Your task to perform on an android device: Show the shopping cart on newegg. Add acer predator to the cart on newegg, then select checkout. Image 0: 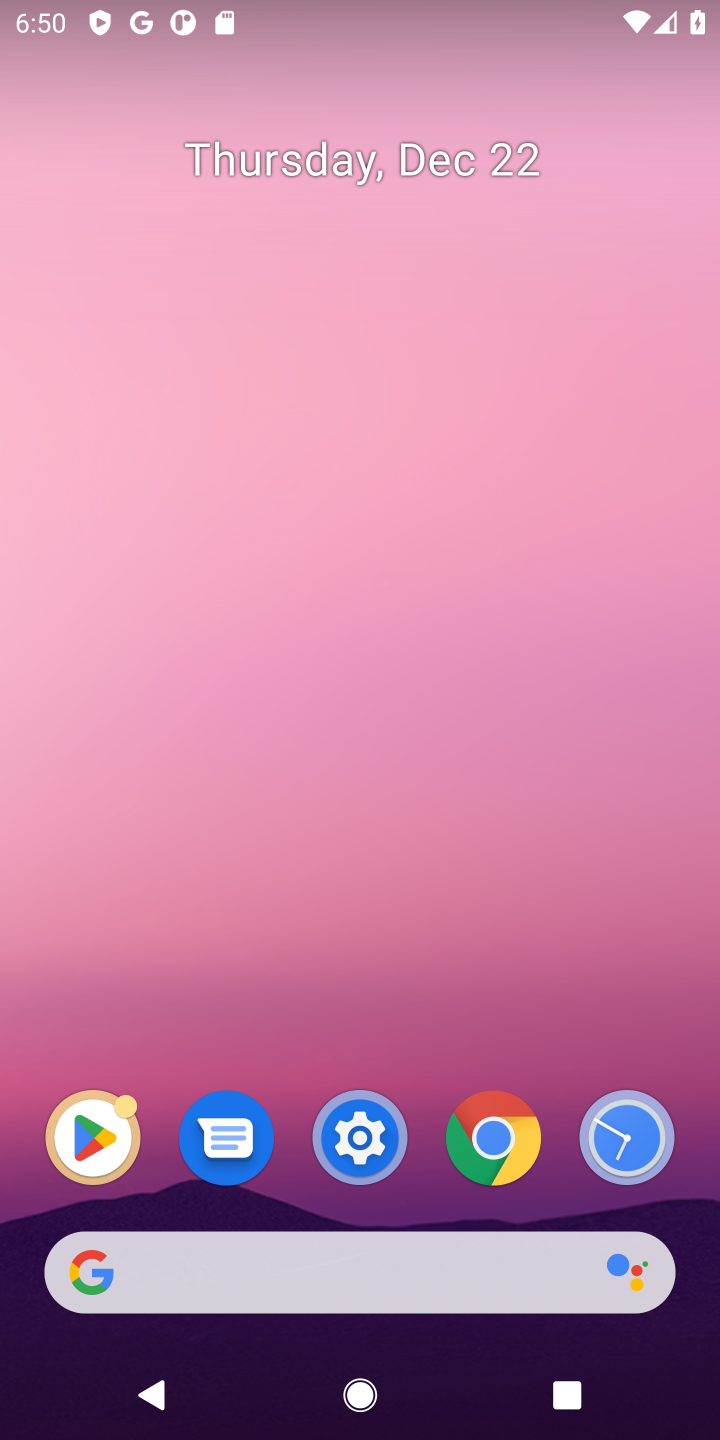
Step 0: click (495, 1164)
Your task to perform on an android device: Show the shopping cart on newegg. Add acer predator to the cart on newegg, then select checkout. Image 1: 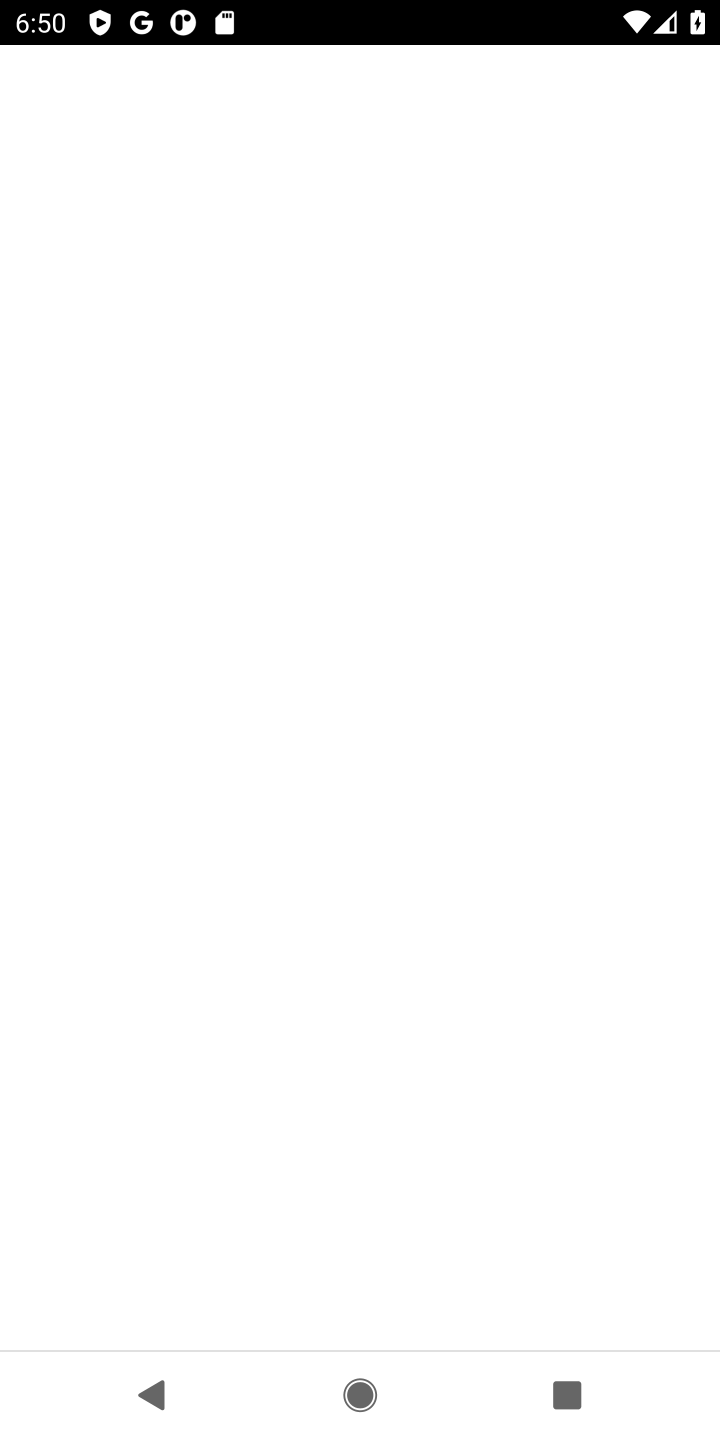
Step 1: press home button
Your task to perform on an android device: Show the shopping cart on newegg. Add acer predator to the cart on newegg, then select checkout. Image 2: 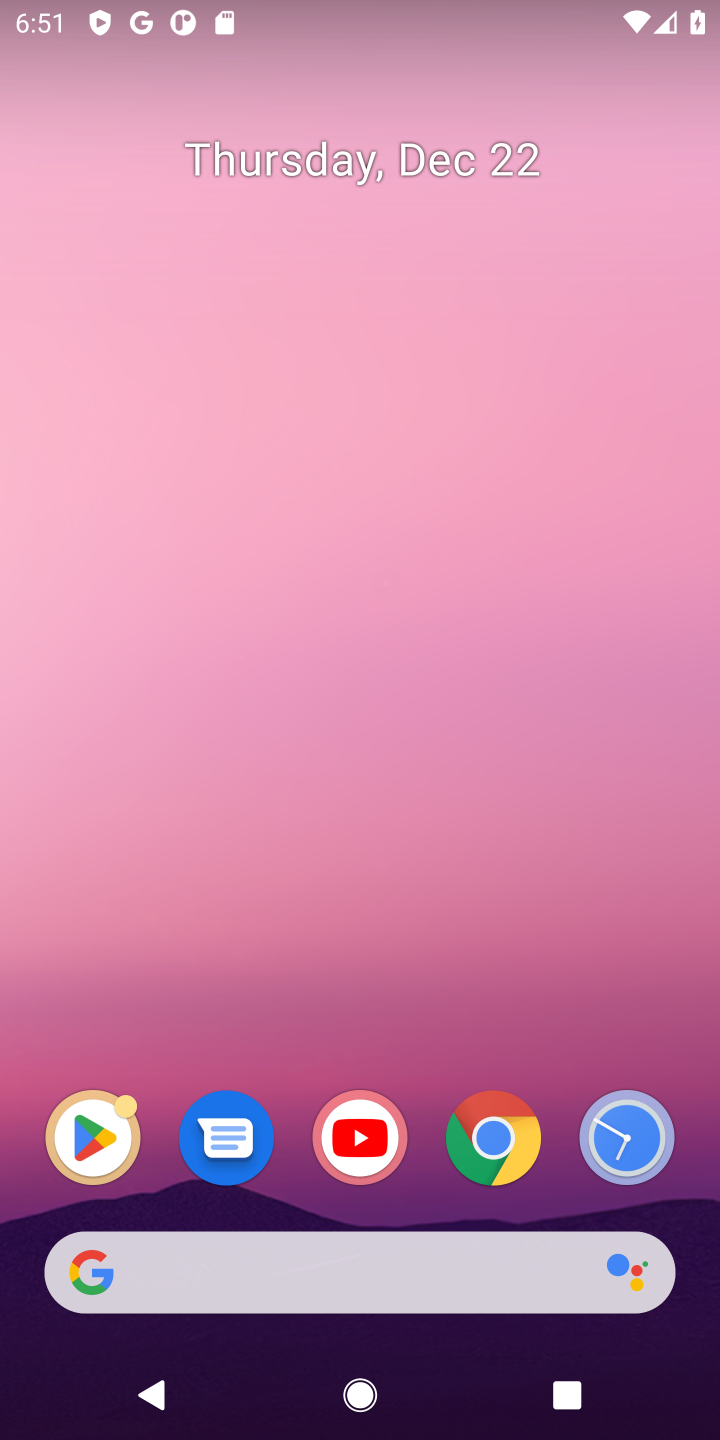
Step 2: click (503, 1144)
Your task to perform on an android device: Show the shopping cart on newegg. Add acer predator to the cart on newegg, then select checkout. Image 3: 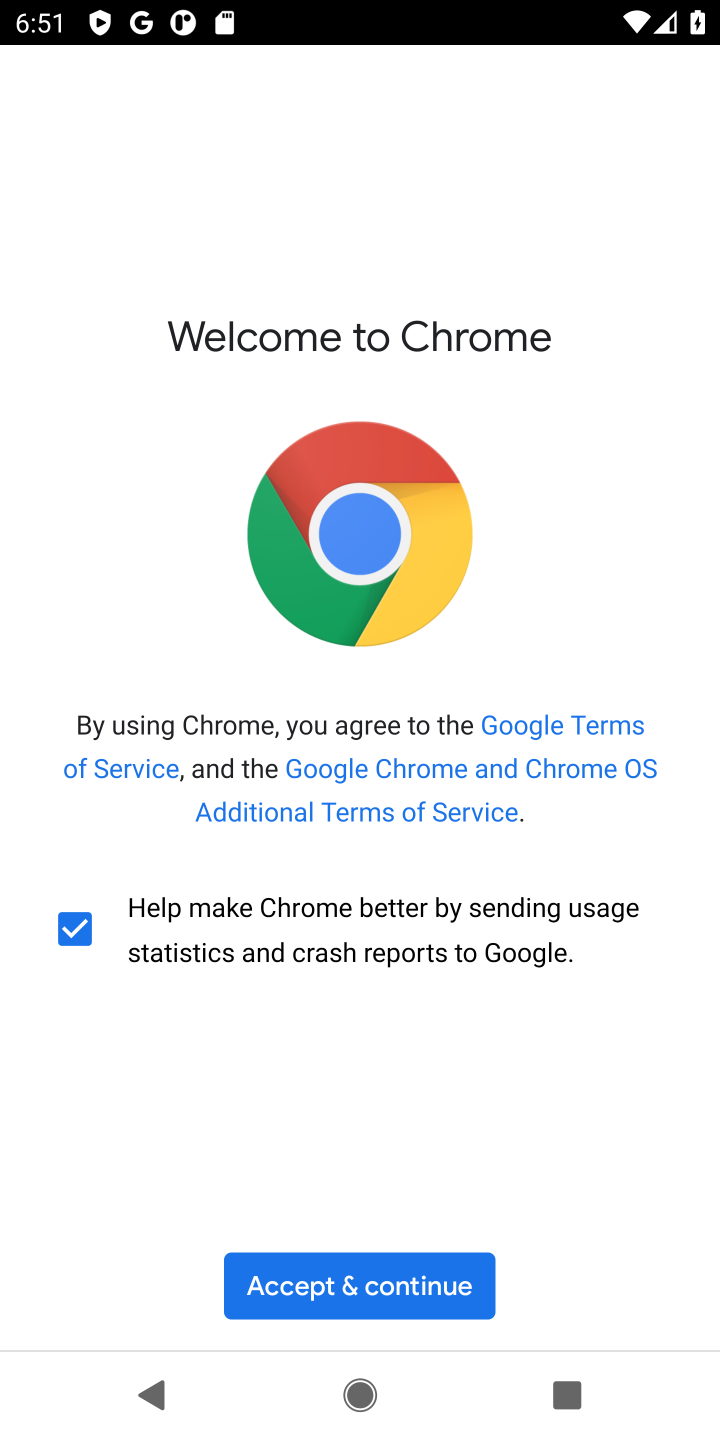
Step 3: click (360, 1278)
Your task to perform on an android device: Show the shopping cart on newegg. Add acer predator to the cart on newegg, then select checkout. Image 4: 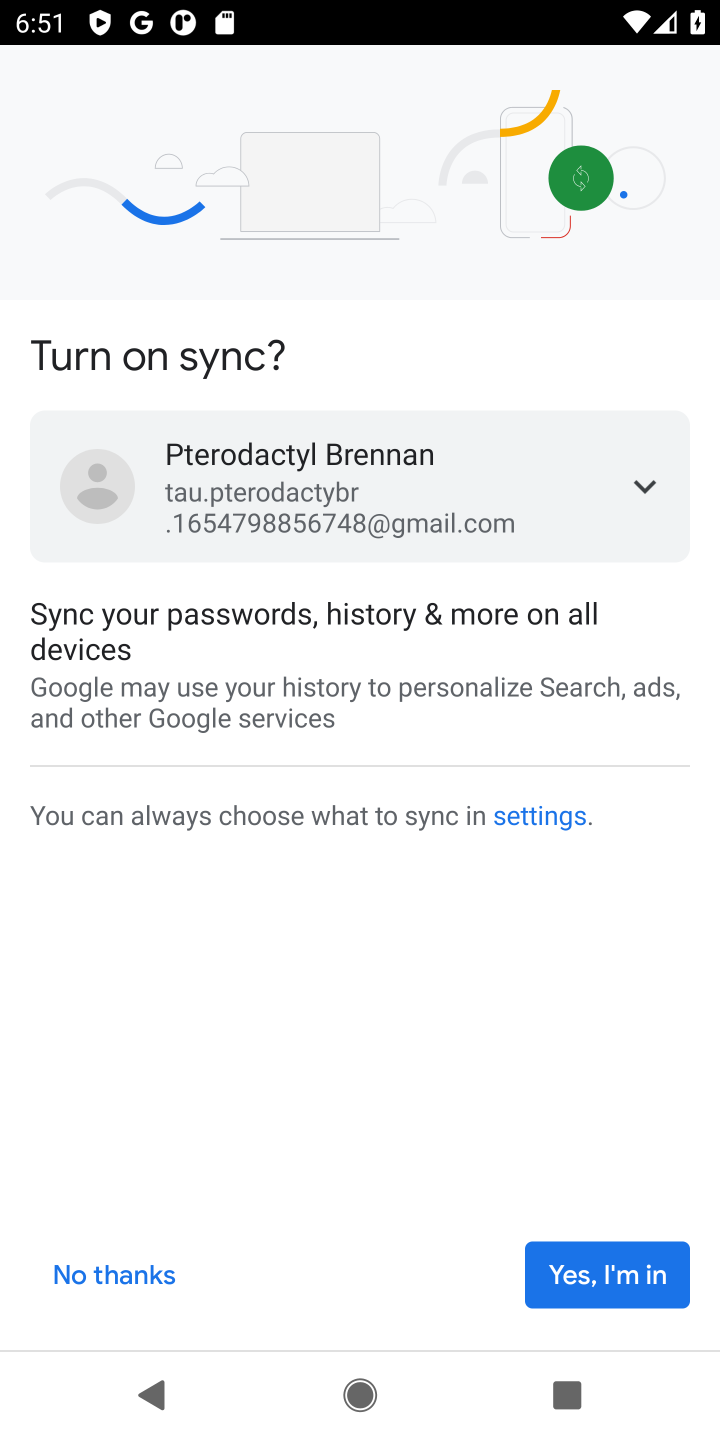
Step 4: click (618, 1269)
Your task to perform on an android device: Show the shopping cart on newegg. Add acer predator to the cart on newegg, then select checkout. Image 5: 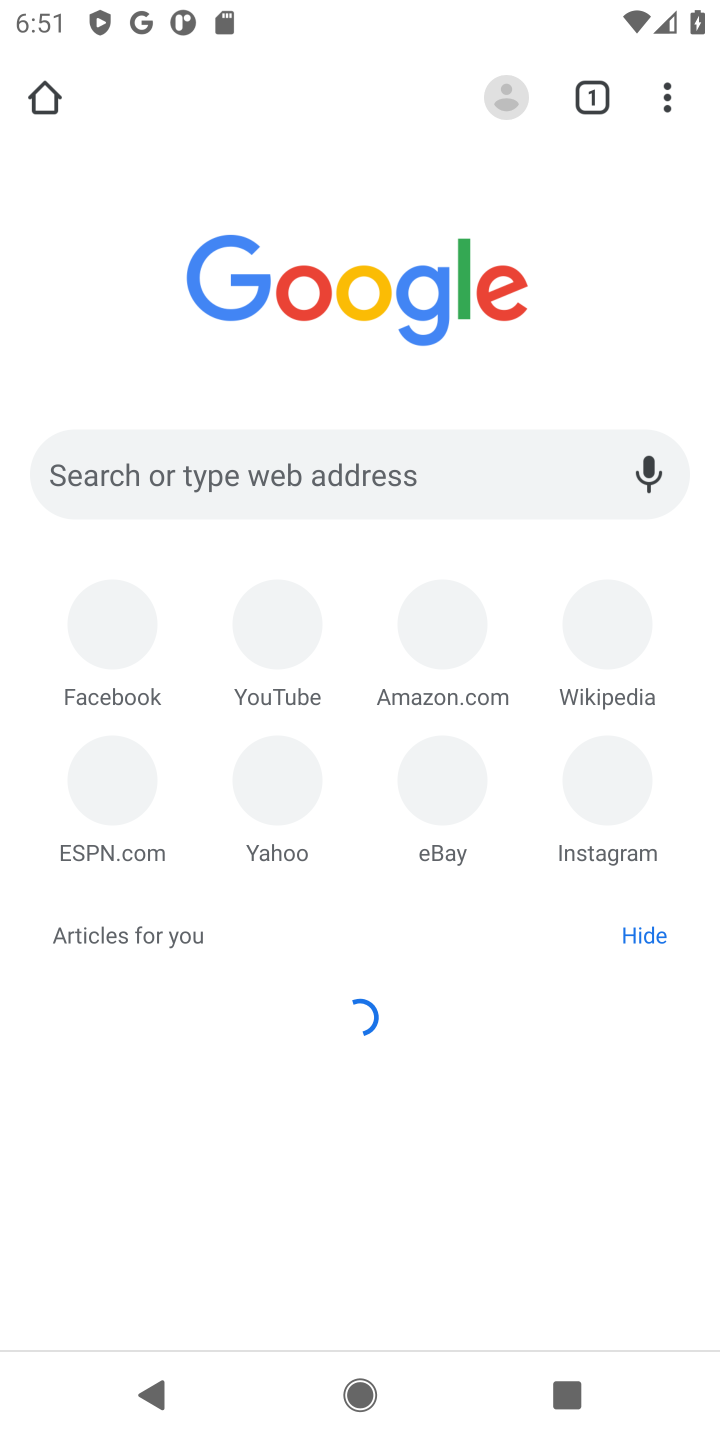
Step 5: click (307, 479)
Your task to perform on an android device: Show the shopping cart on newegg. Add acer predator to the cart on newegg, then select checkout. Image 6: 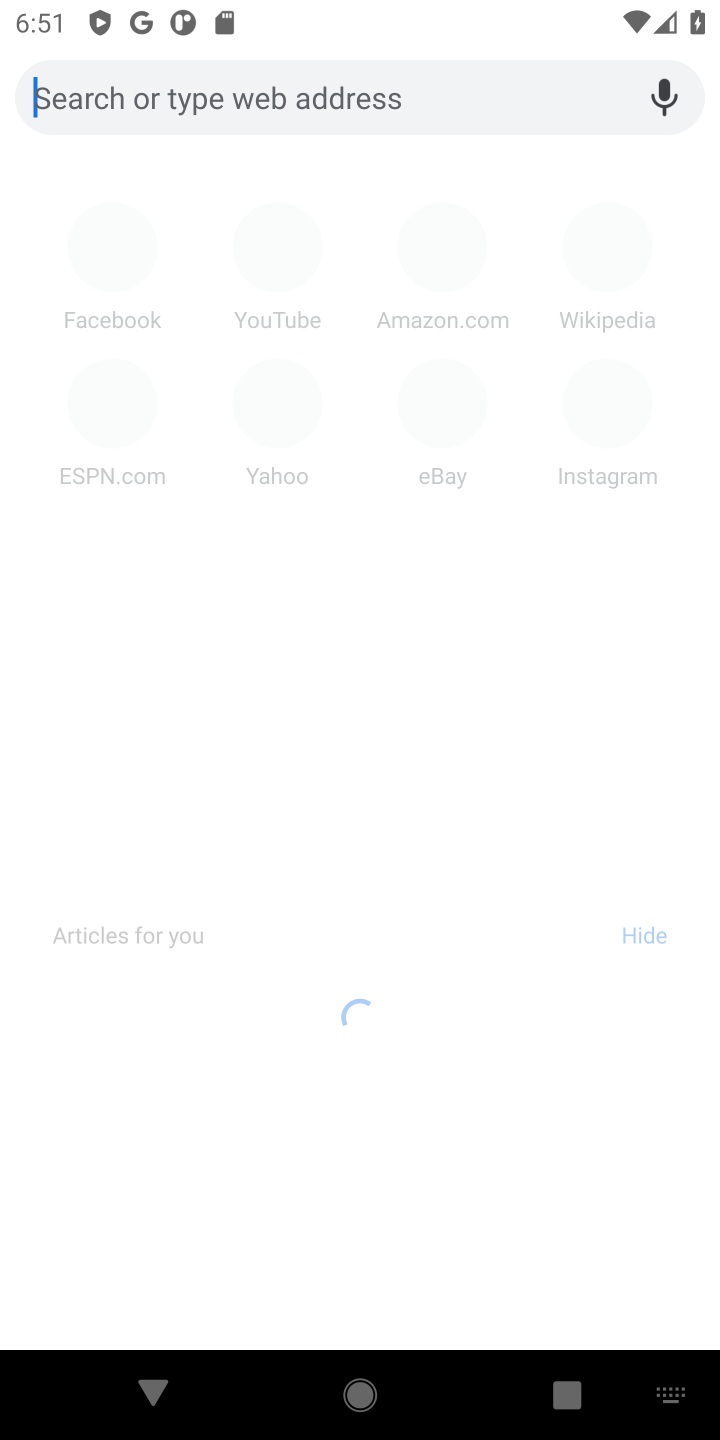
Step 6: press enter
Your task to perform on an android device: Show the shopping cart on newegg. Add acer predator to the cart on newegg, then select checkout. Image 7: 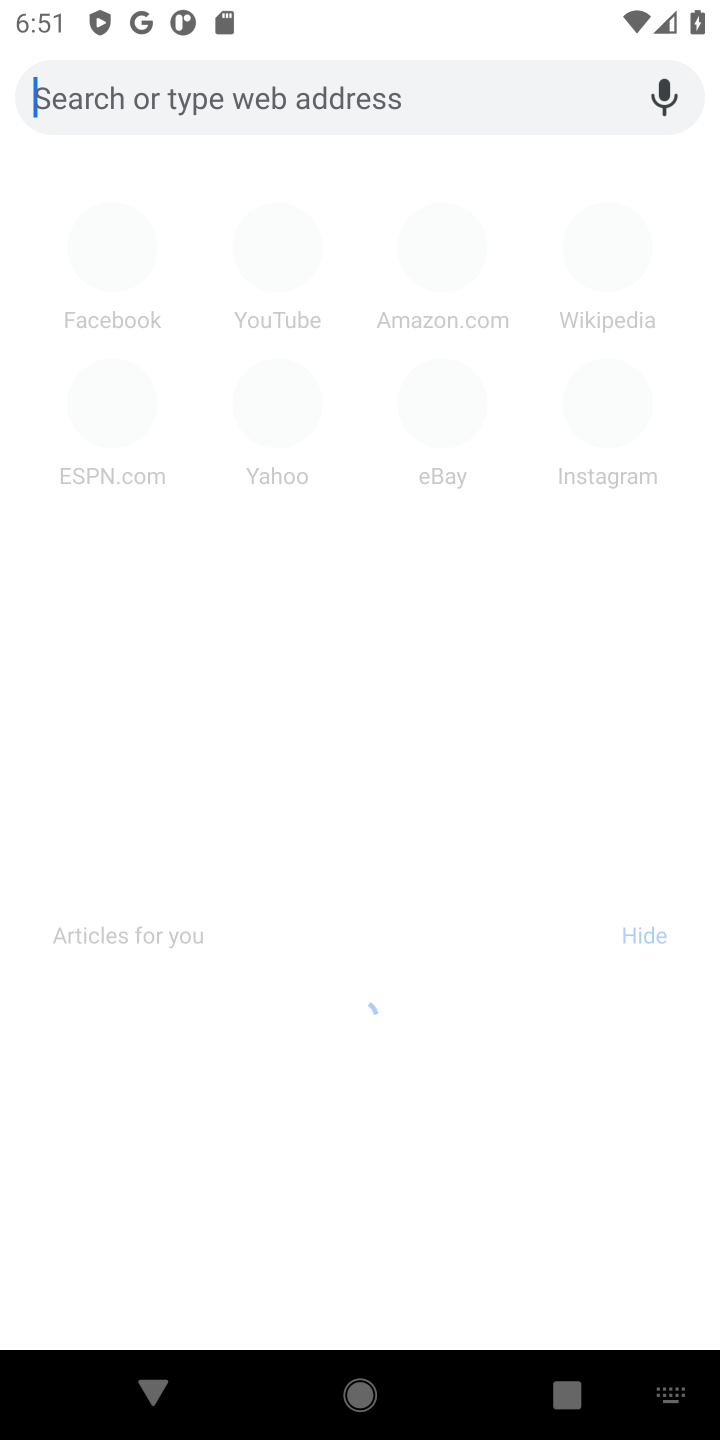
Step 7: type "newegg"
Your task to perform on an android device: Show the shopping cart on newegg. Add acer predator to the cart on newegg, then select checkout. Image 8: 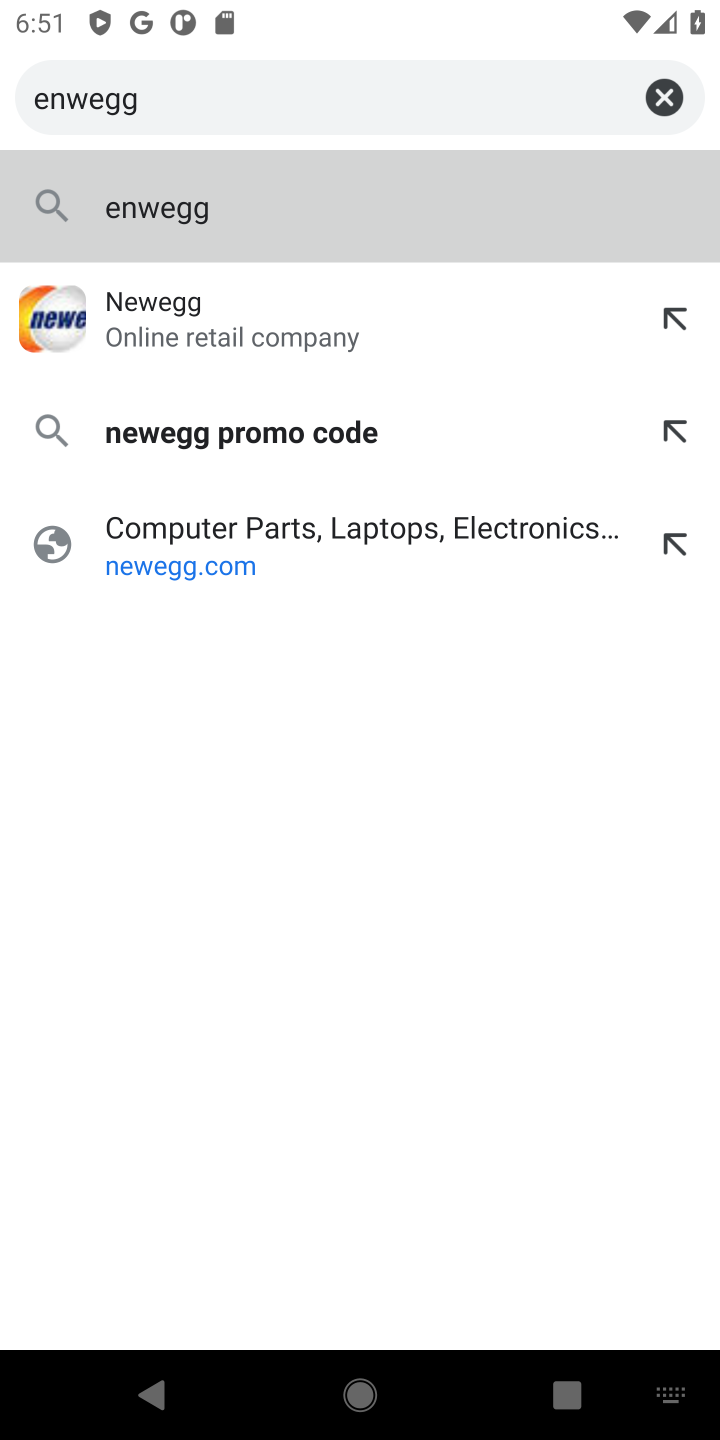
Step 8: click (354, 213)
Your task to perform on an android device: Show the shopping cart on newegg. Add acer predator to the cart on newegg, then select checkout. Image 9: 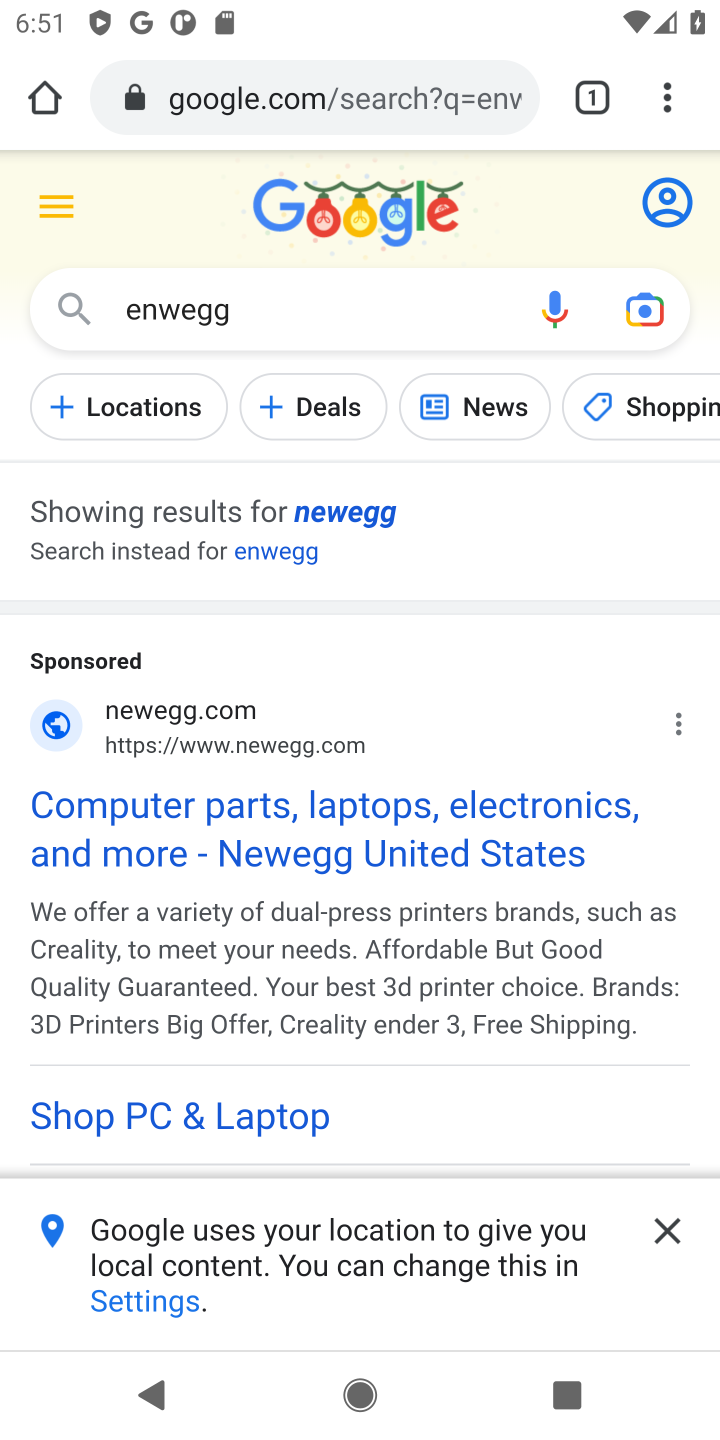
Step 9: click (225, 698)
Your task to perform on an android device: Show the shopping cart on newegg. Add acer predator to the cart on newegg, then select checkout. Image 10: 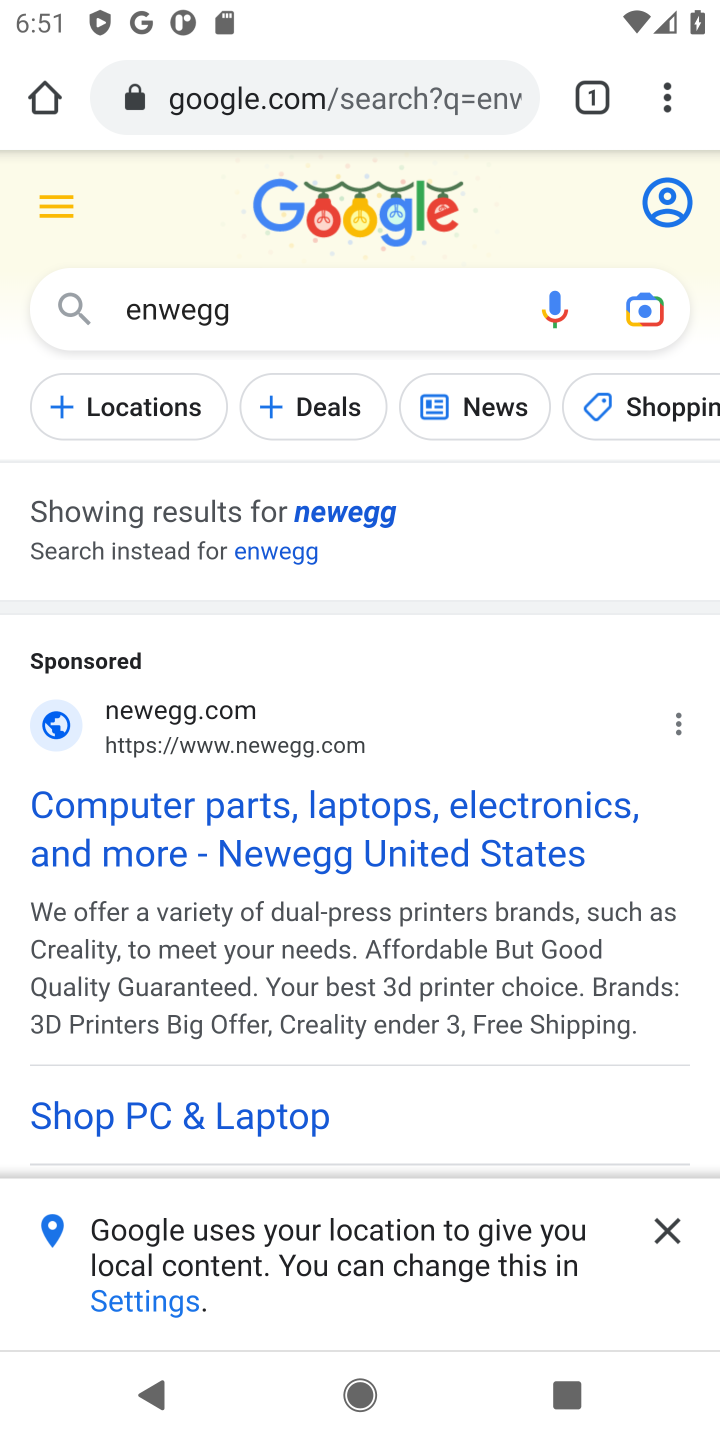
Step 10: drag from (412, 986) to (503, 538)
Your task to perform on an android device: Show the shopping cart on newegg. Add acer predator to the cart on newegg, then select checkout. Image 11: 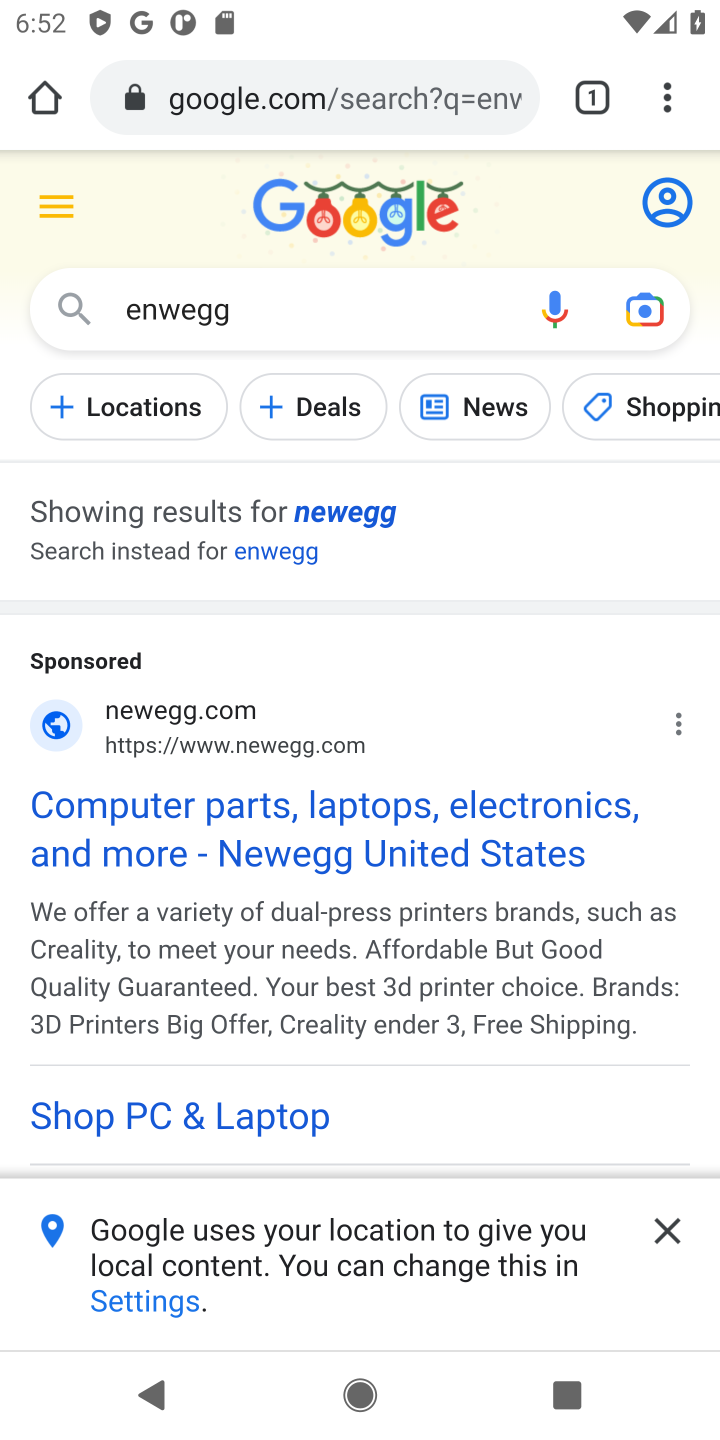
Step 11: drag from (505, 1018) to (541, 540)
Your task to perform on an android device: Show the shopping cart on newegg. Add acer predator to the cart on newegg, then select checkout. Image 12: 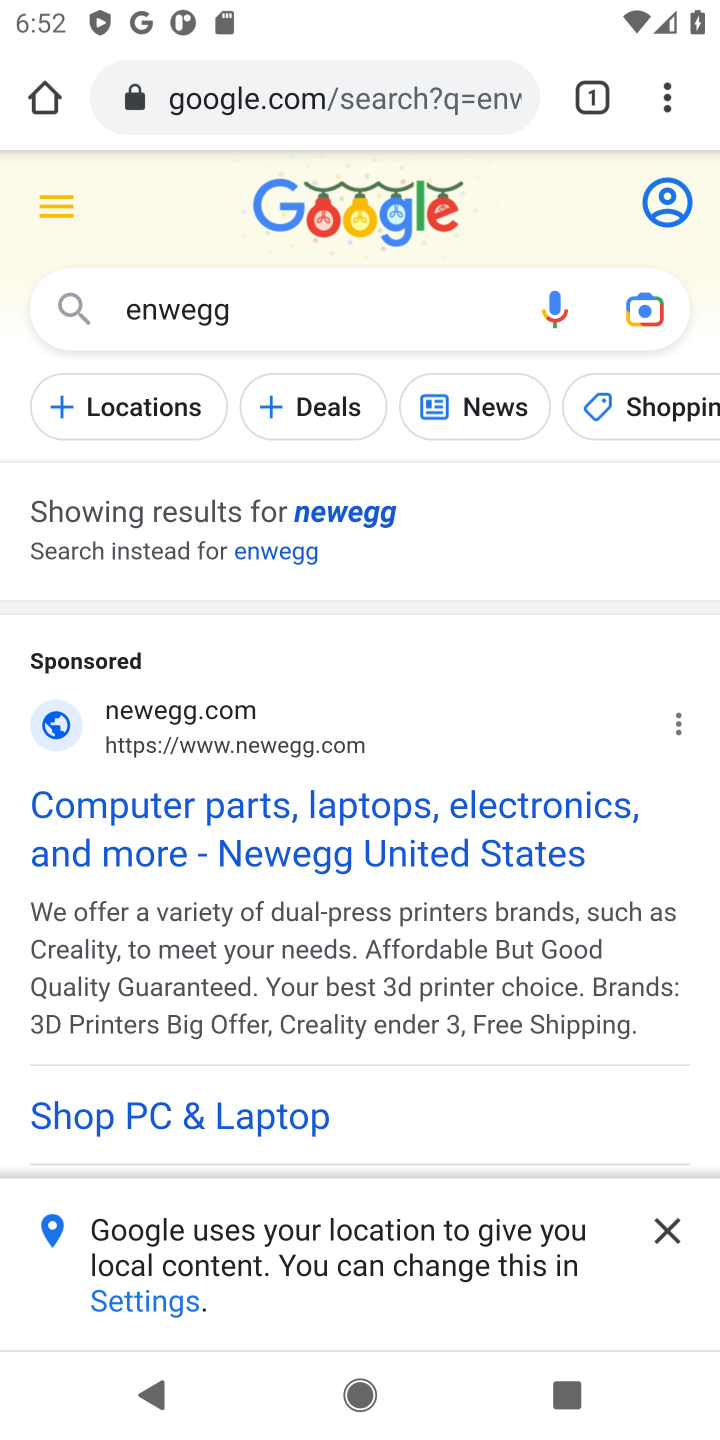
Step 12: click (296, 747)
Your task to perform on an android device: Show the shopping cart on newegg. Add acer predator to the cart on newegg, then select checkout. Image 13: 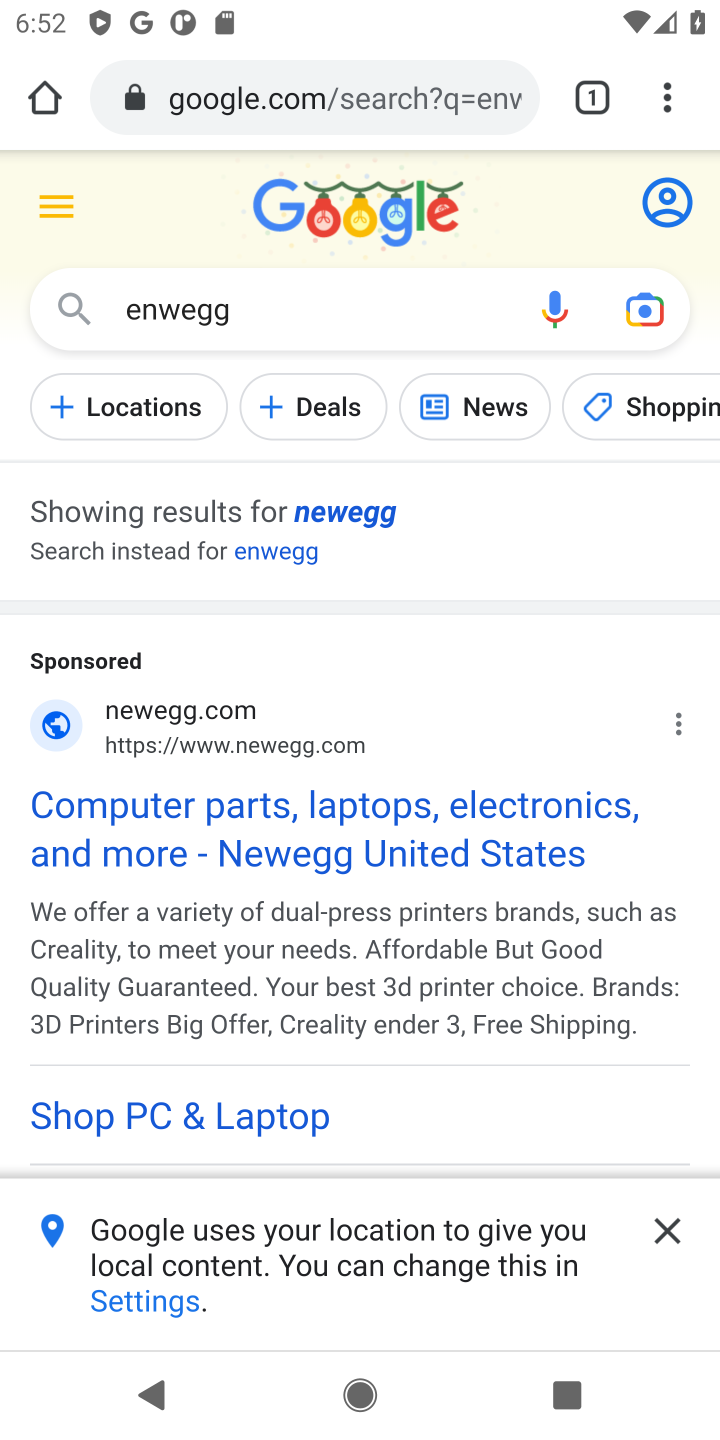
Step 13: click (296, 747)
Your task to perform on an android device: Show the shopping cart on newegg. Add acer predator to the cart on newegg, then select checkout. Image 14: 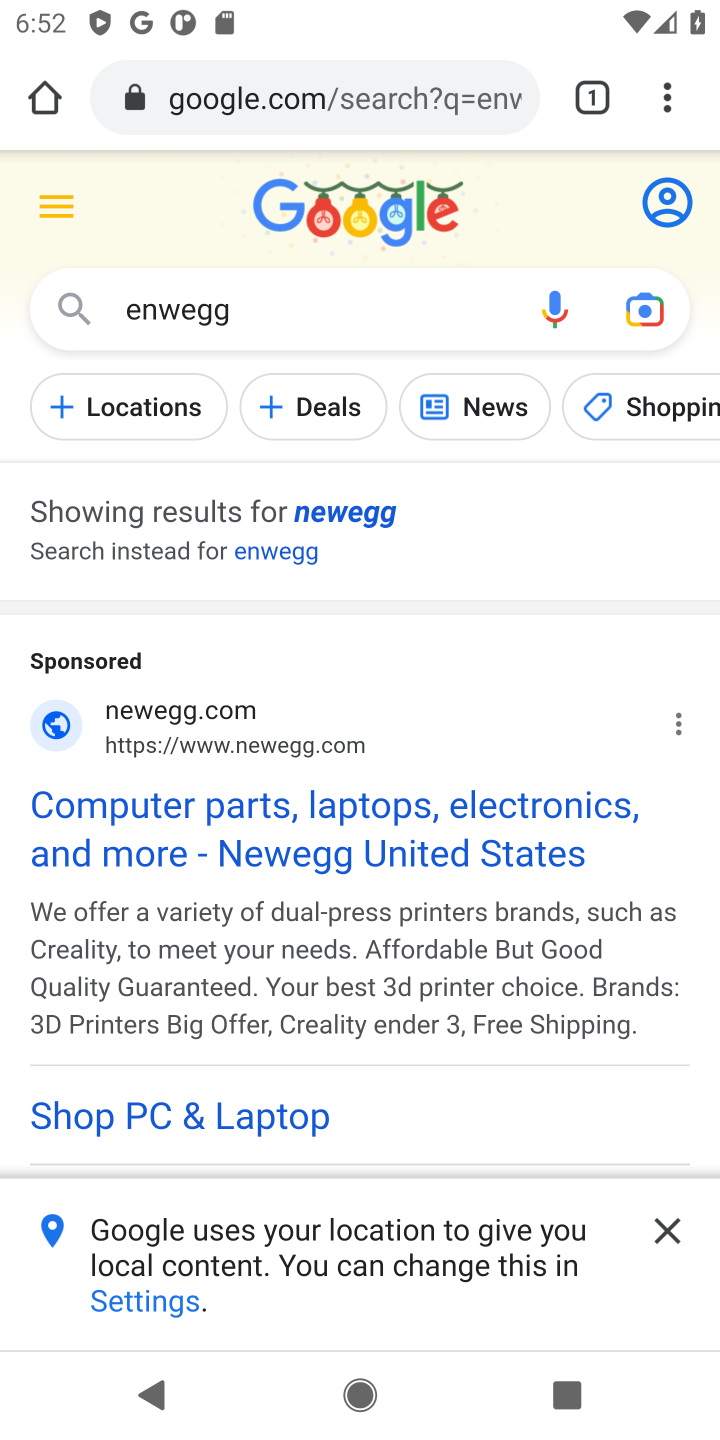
Step 14: click (296, 747)
Your task to perform on an android device: Show the shopping cart on newegg. Add acer predator to the cart on newegg, then select checkout. Image 15: 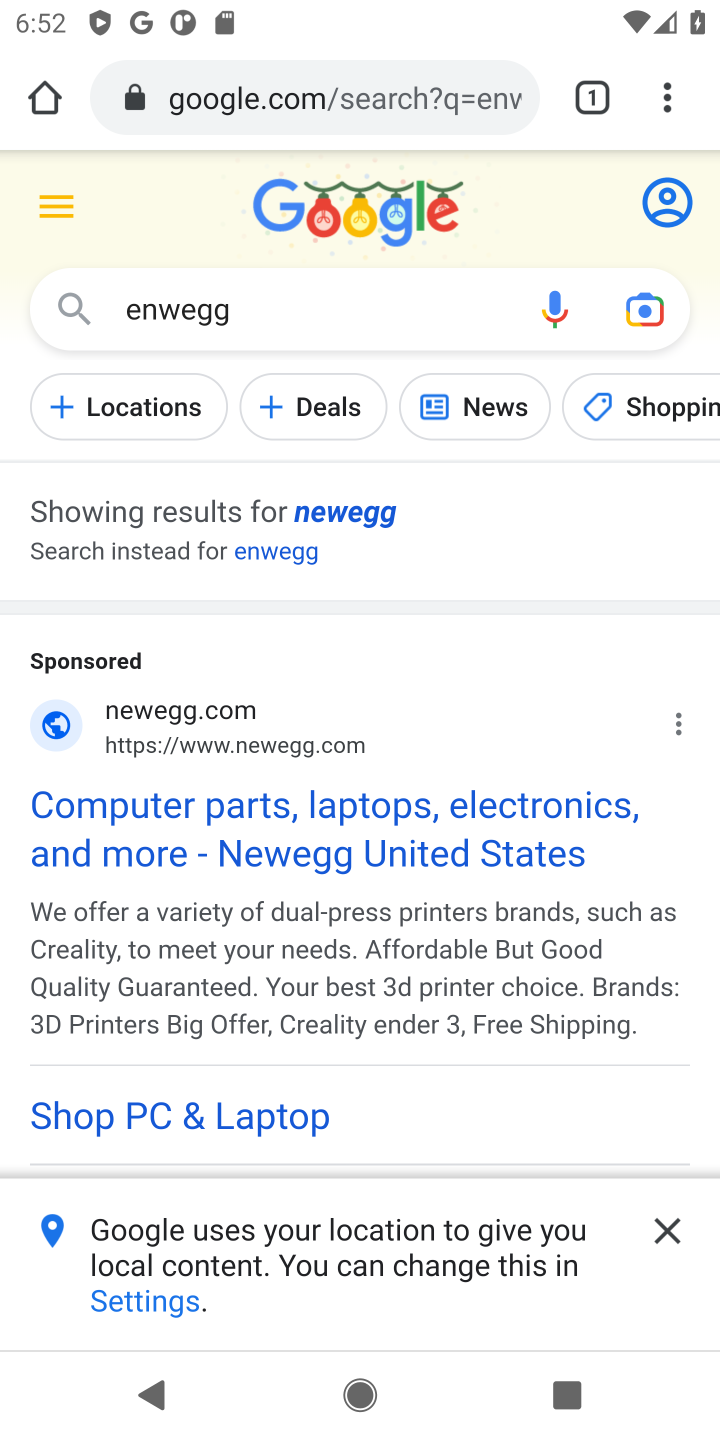
Step 15: click (296, 747)
Your task to perform on an android device: Show the shopping cart on newegg. Add acer predator to the cart on newegg, then select checkout. Image 16: 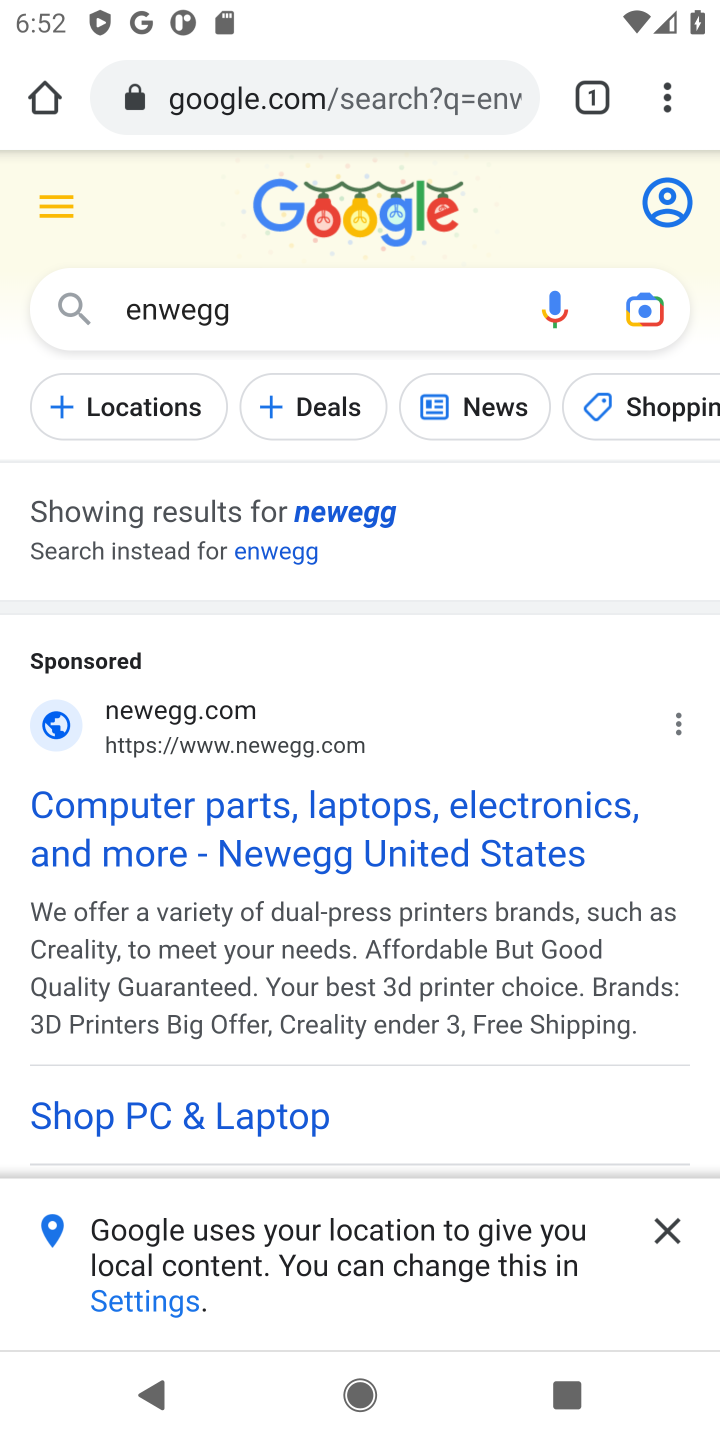
Step 16: click (216, 742)
Your task to perform on an android device: Show the shopping cart on newegg. Add acer predator to the cart on newegg, then select checkout. Image 17: 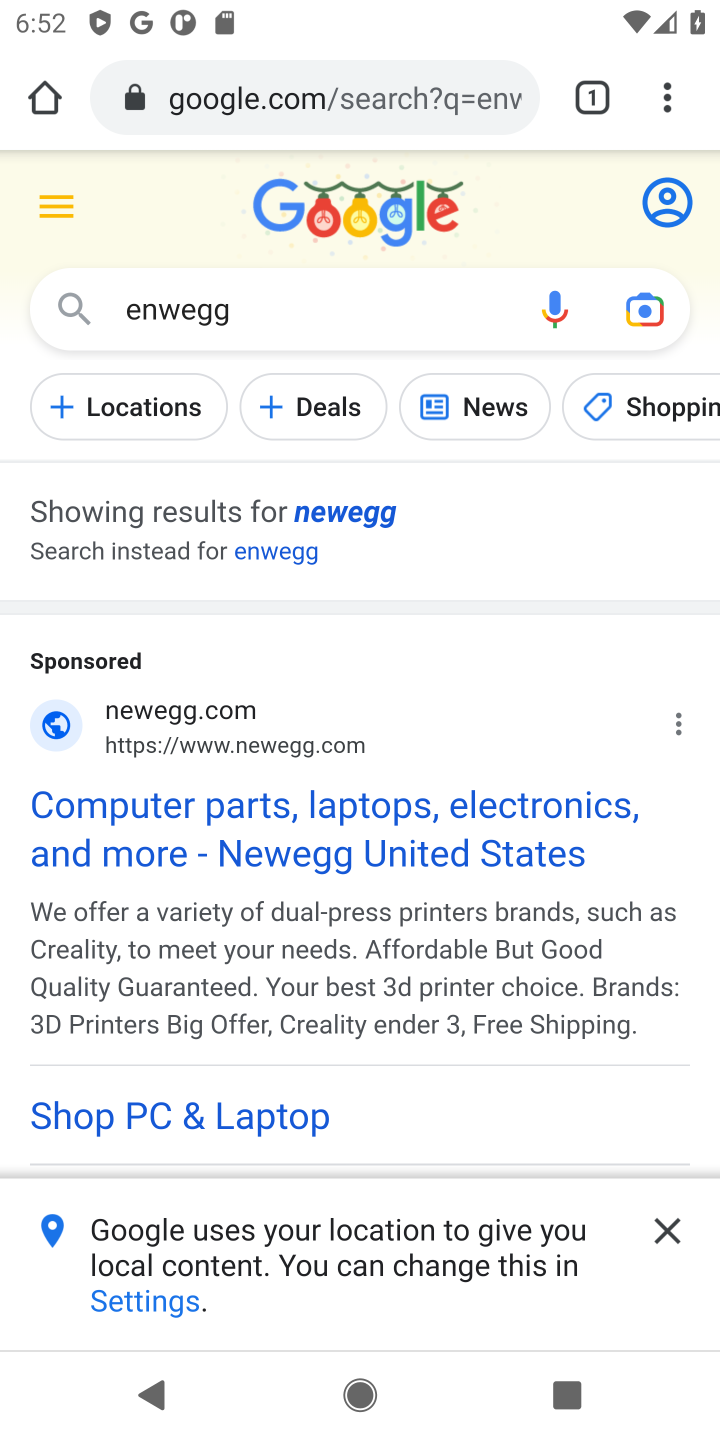
Step 17: click (674, 1226)
Your task to perform on an android device: Show the shopping cart on newegg. Add acer predator to the cart on newegg, then select checkout. Image 18: 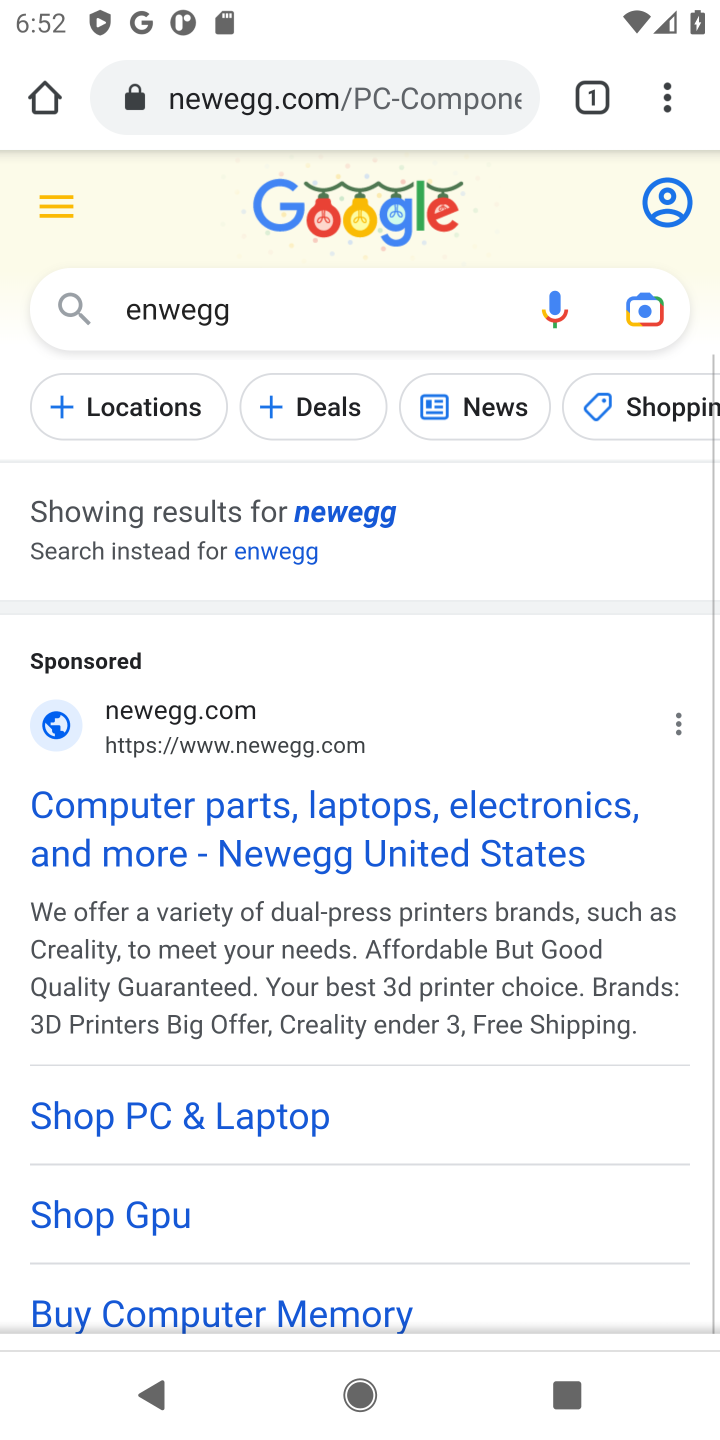
Step 18: click (324, 737)
Your task to perform on an android device: Show the shopping cart on newegg. Add acer predator to the cart on newegg, then select checkout. Image 19: 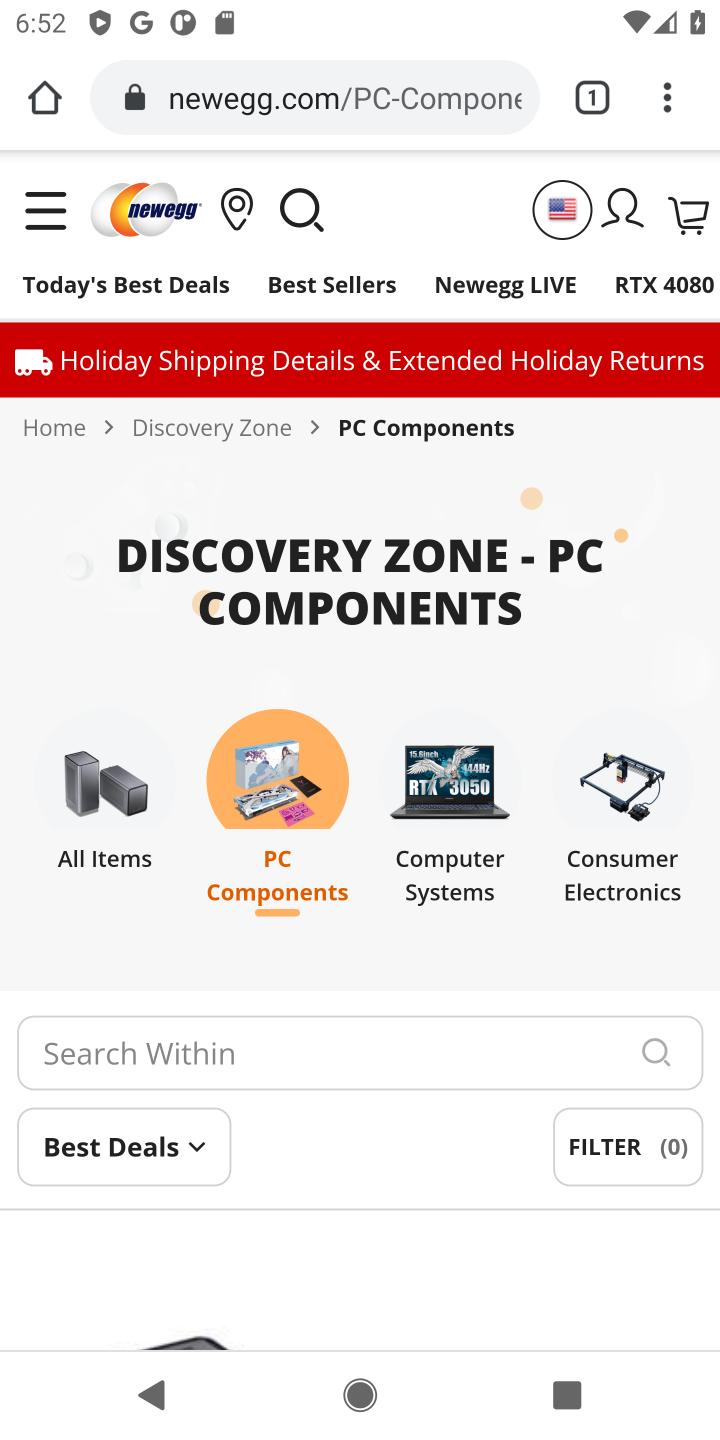
Step 19: click (308, 205)
Your task to perform on an android device: Show the shopping cart on newegg. Add acer predator to the cart on newegg, then select checkout. Image 20: 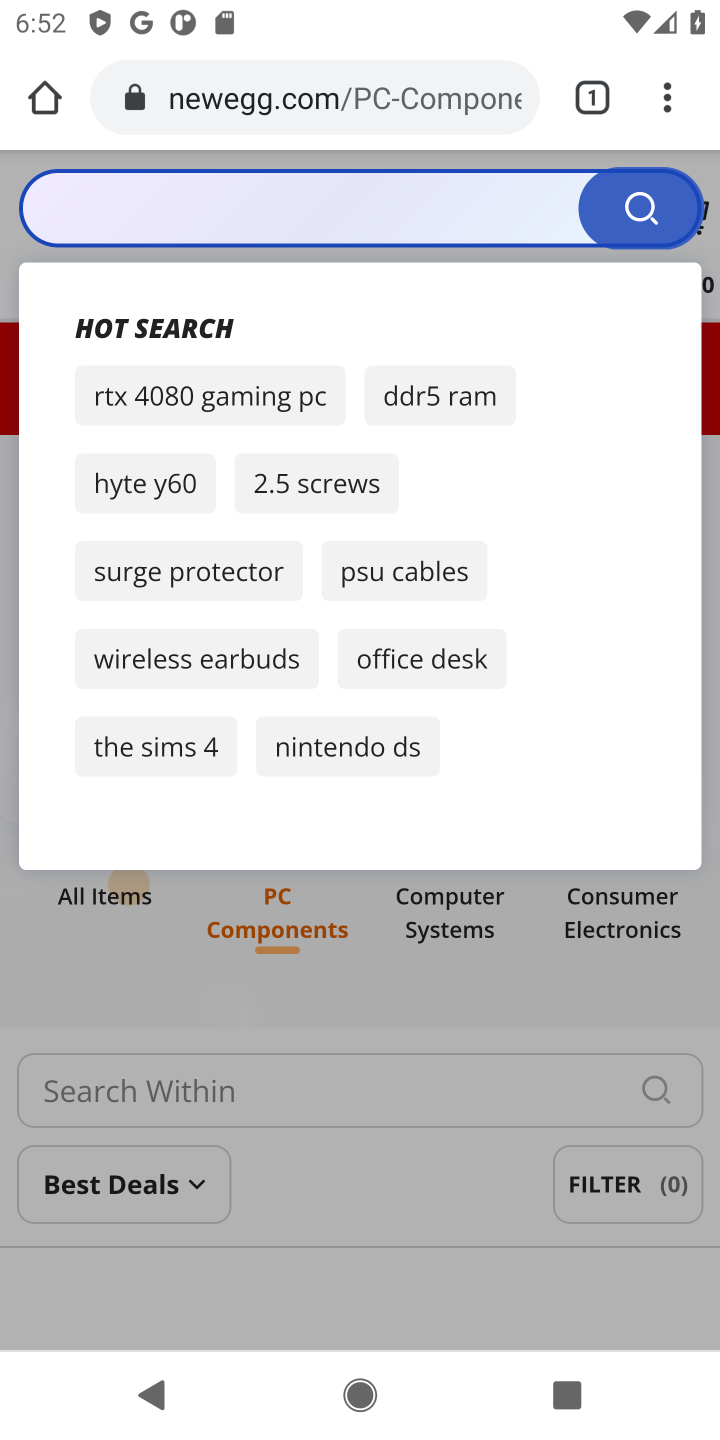
Step 20: click (432, 218)
Your task to perform on an android device: Show the shopping cart on newegg. Add acer predator to the cart on newegg, then select checkout. Image 21: 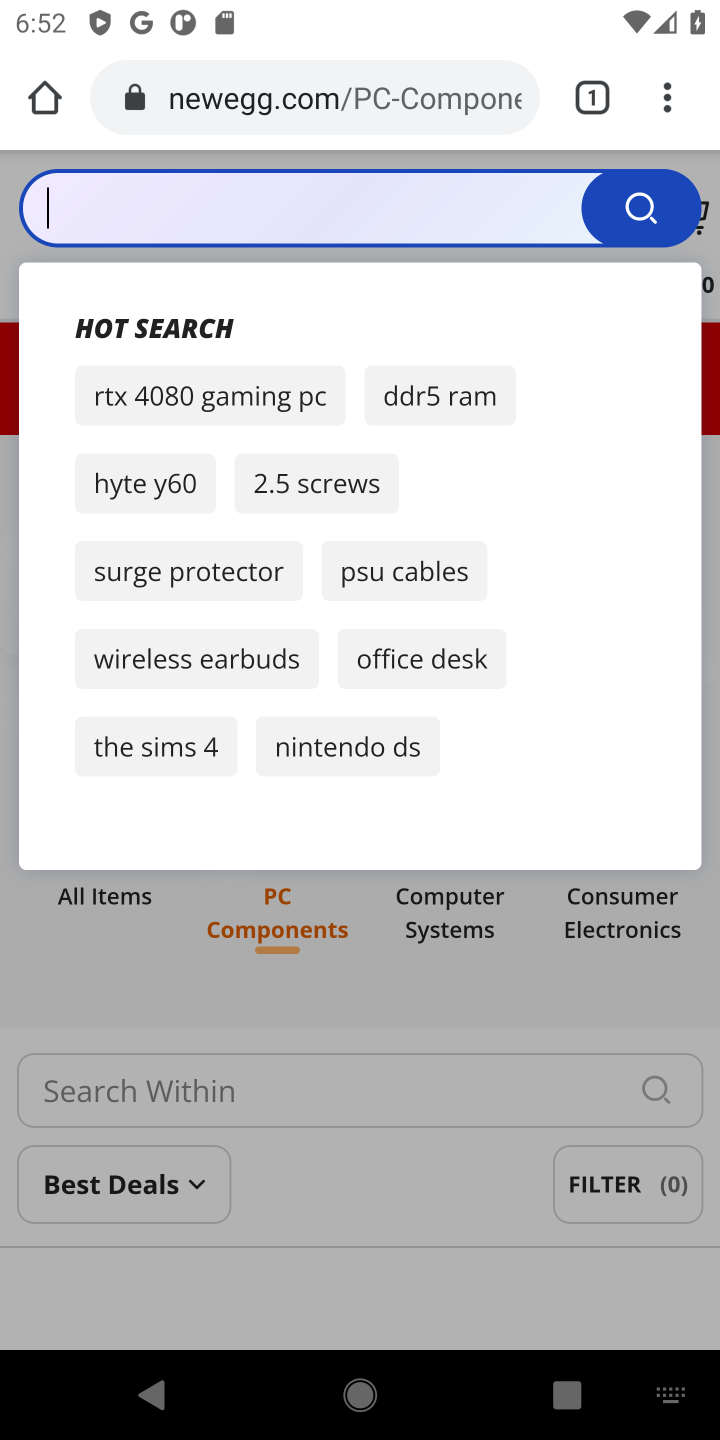
Step 21: click (432, 218)
Your task to perform on an android device: Show the shopping cart on newegg. Add acer predator to the cart on newegg, then select checkout. Image 22: 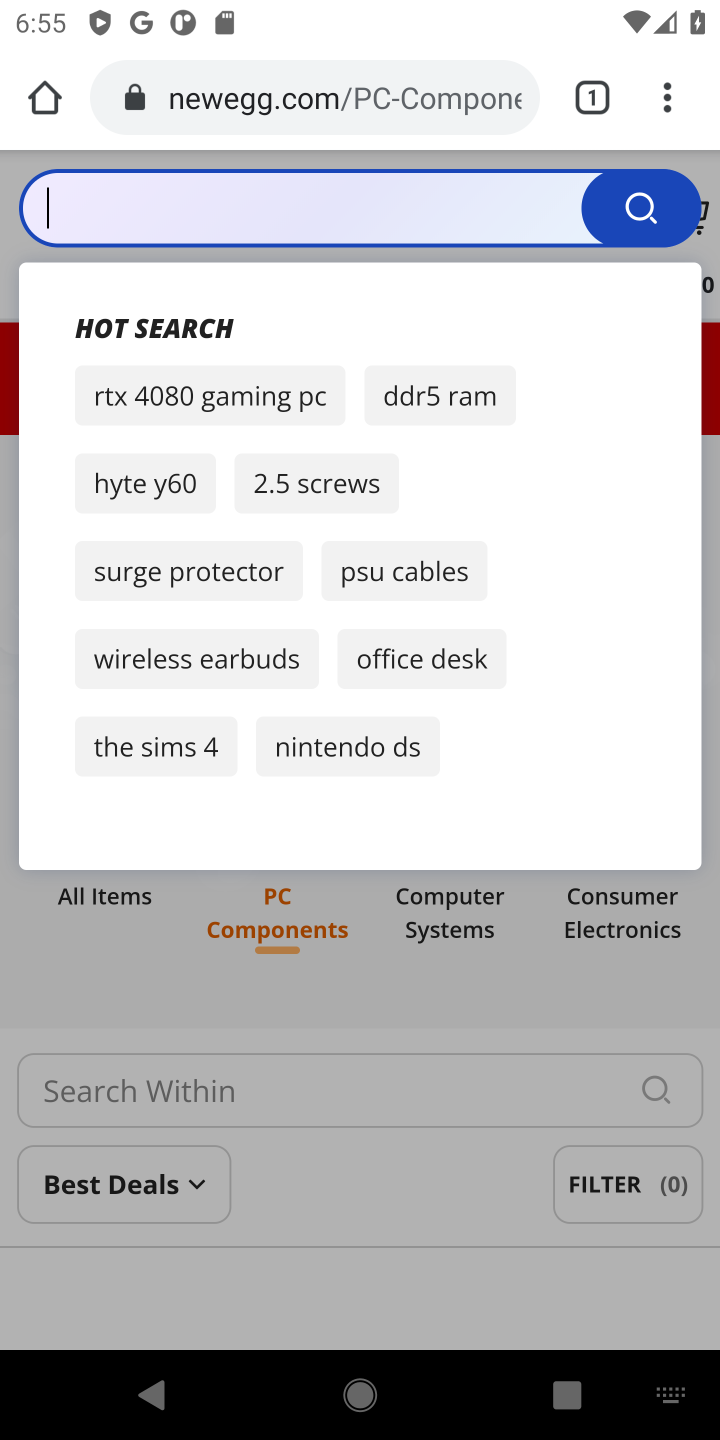
Step 22: click (536, 988)
Your task to perform on an android device: Show the shopping cart on newegg. Add acer predator to the cart on newegg, then select checkout. Image 23: 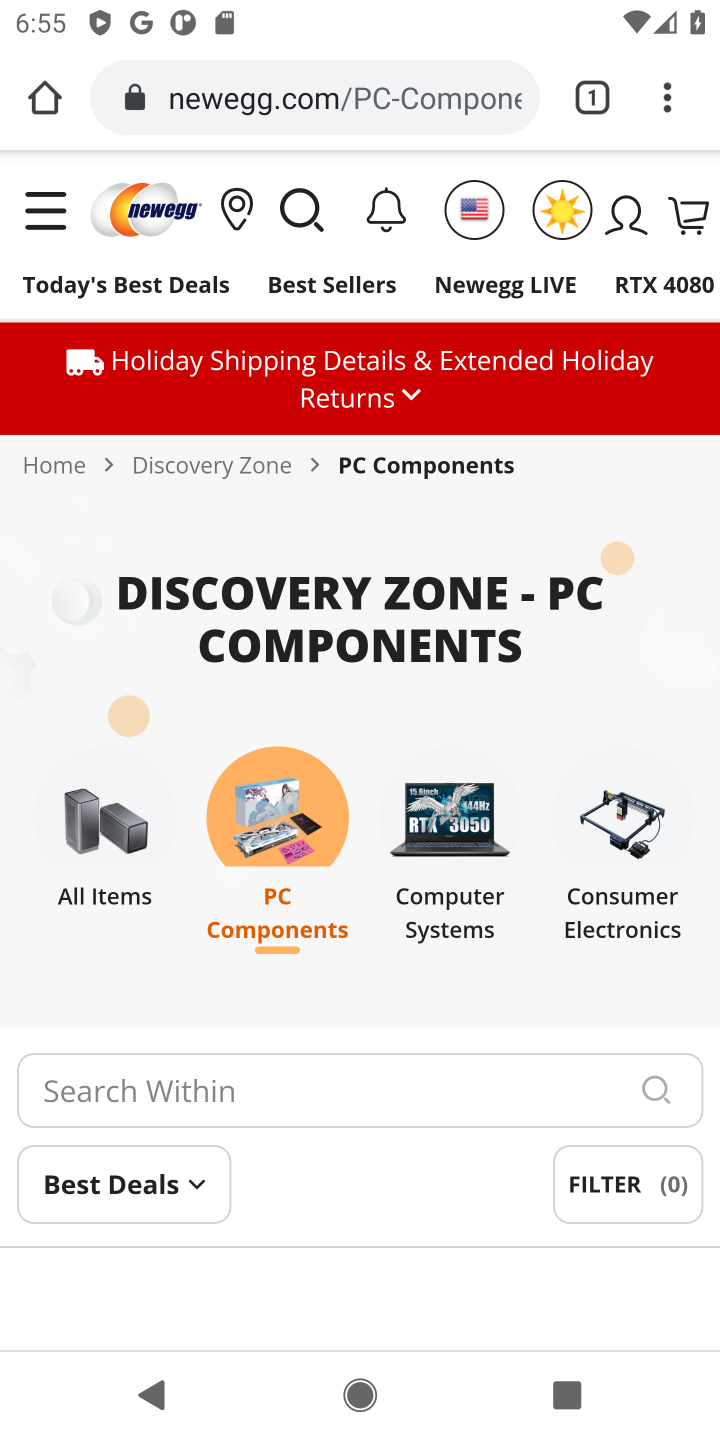
Step 23: click (688, 212)
Your task to perform on an android device: Show the shopping cart on newegg. Add acer predator to the cart on newegg, then select checkout. Image 24: 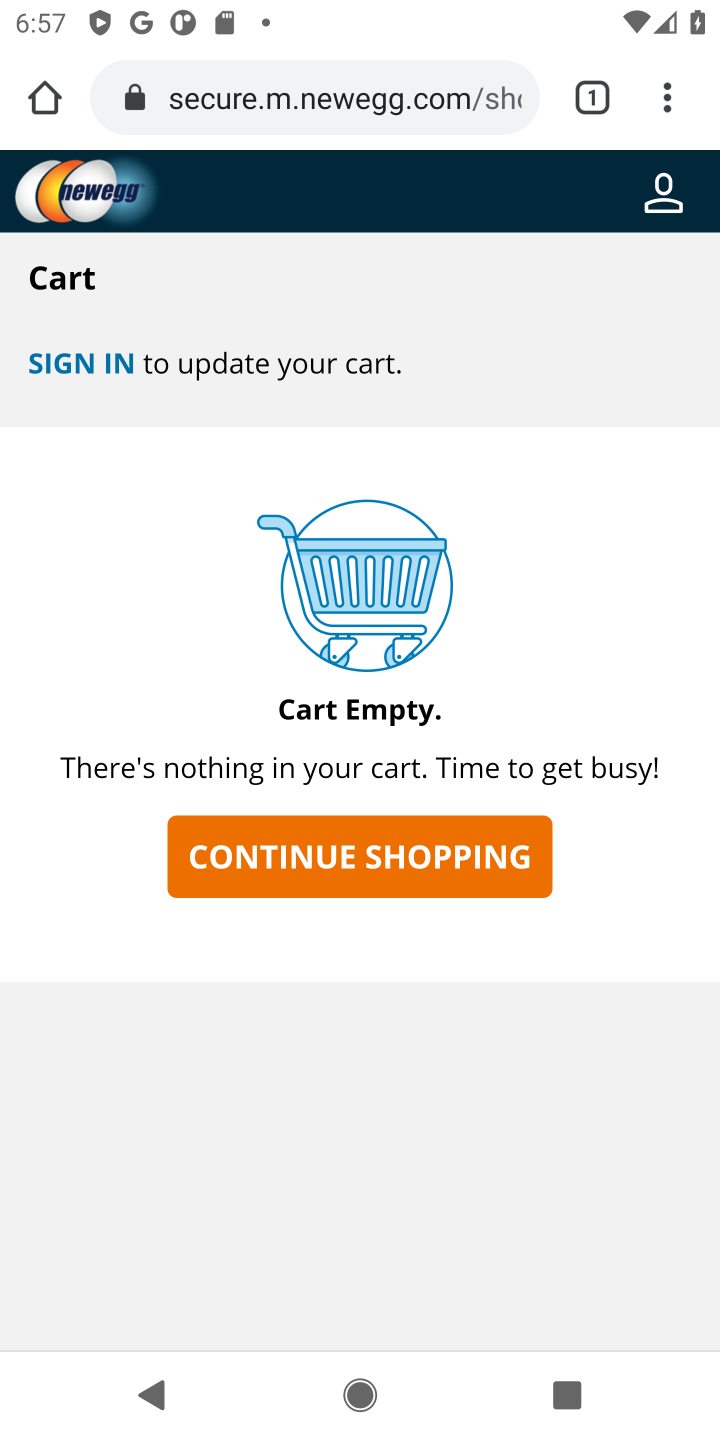
Step 24: click (457, 198)
Your task to perform on an android device: Show the shopping cart on newegg. Add acer predator to the cart on newegg, then select checkout. Image 25: 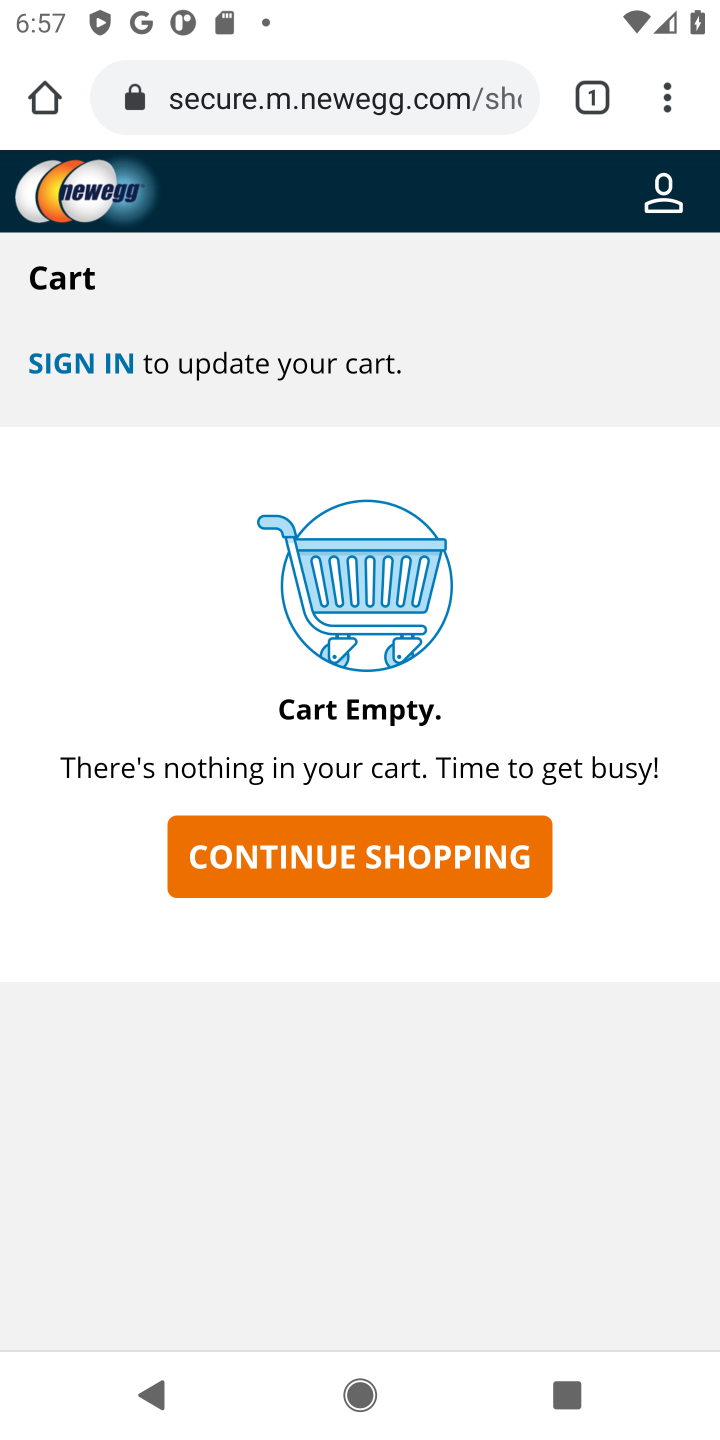
Step 25: press back button
Your task to perform on an android device: Show the shopping cart on newegg. Add acer predator to the cart on newegg, then select checkout. Image 26: 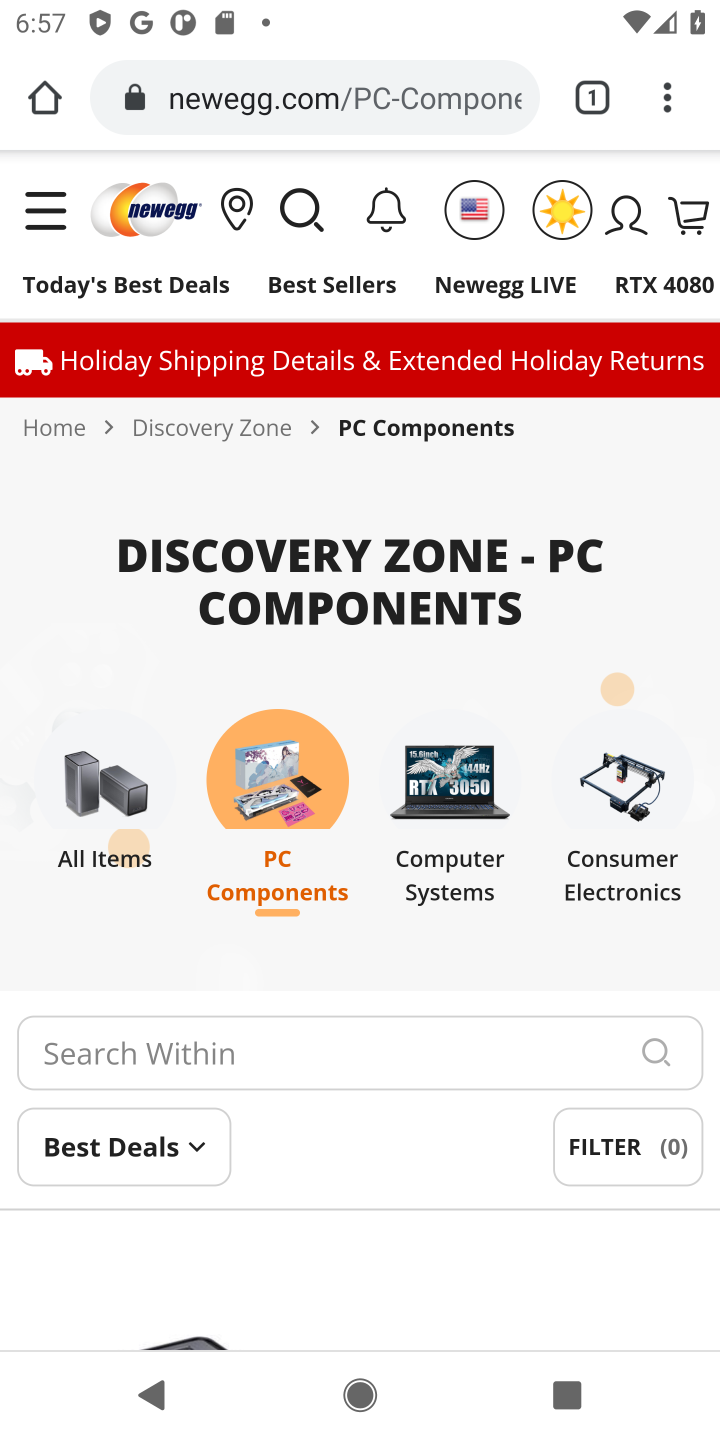
Step 26: click (292, 209)
Your task to perform on an android device: Show the shopping cart on newegg. Add acer predator to the cart on newegg, then select checkout. Image 27: 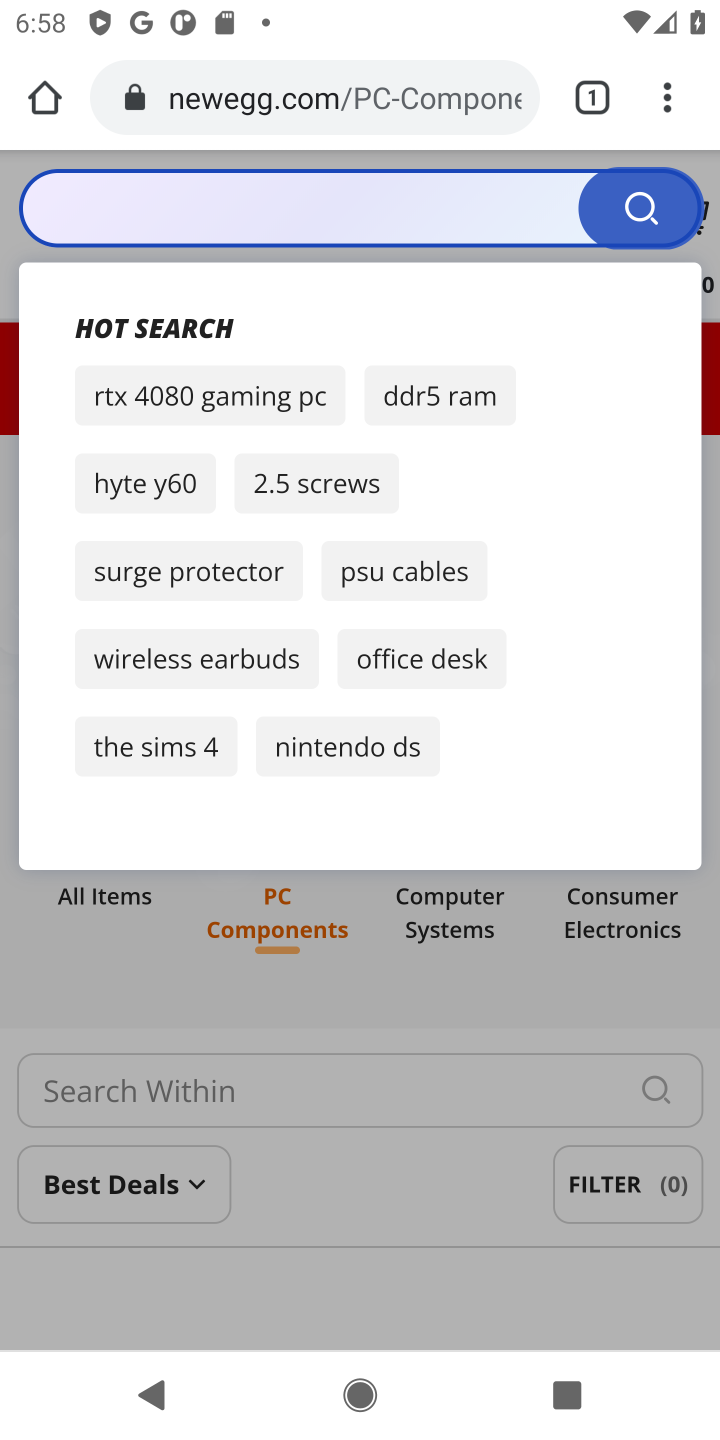
Step 27: click (378, 226)
Your task to perform on an android device: Show the shopping cart on newegg. Add acer predator to the cart on newegg, then select checkout. Image 28: 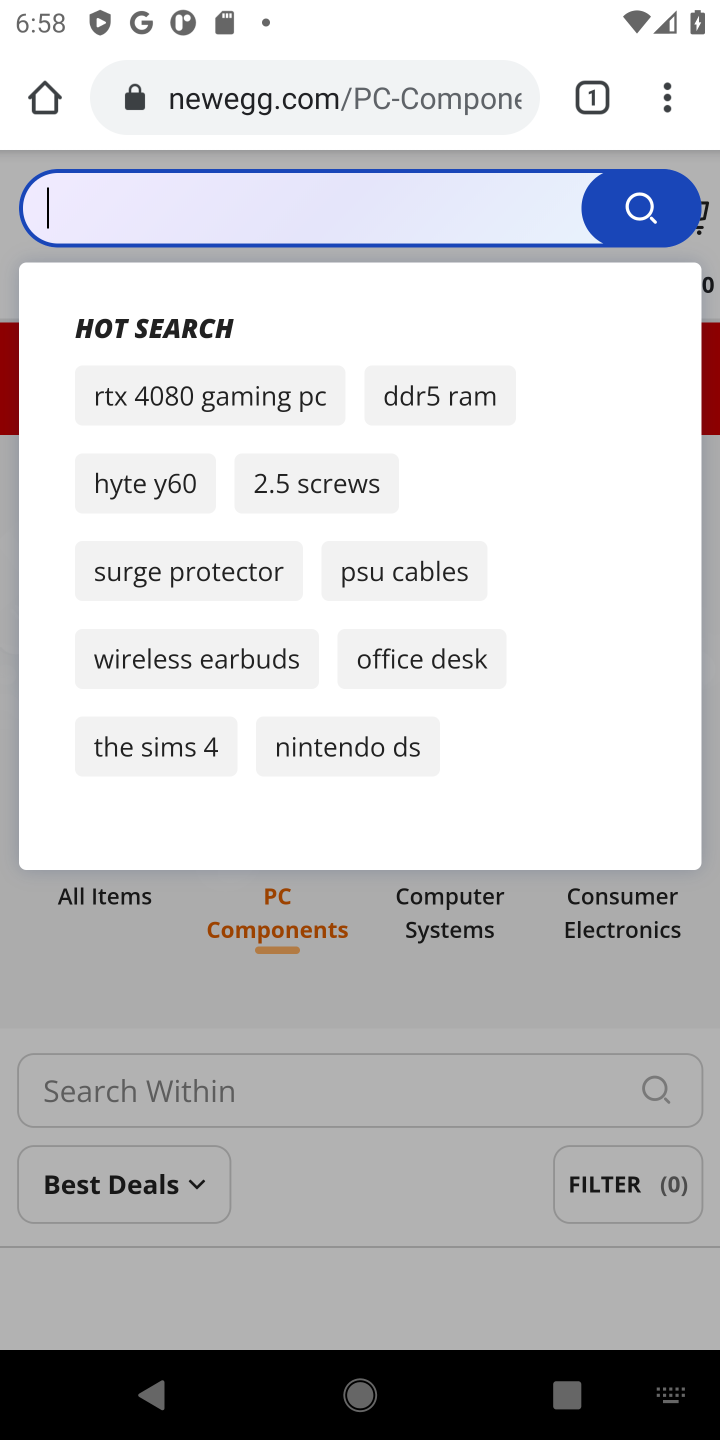
Step 28: press enter
Your task to perform on an android device: Show the shopping cart on newegg. Add acer predator to the cart on newegg, then select checkout. Image 29: 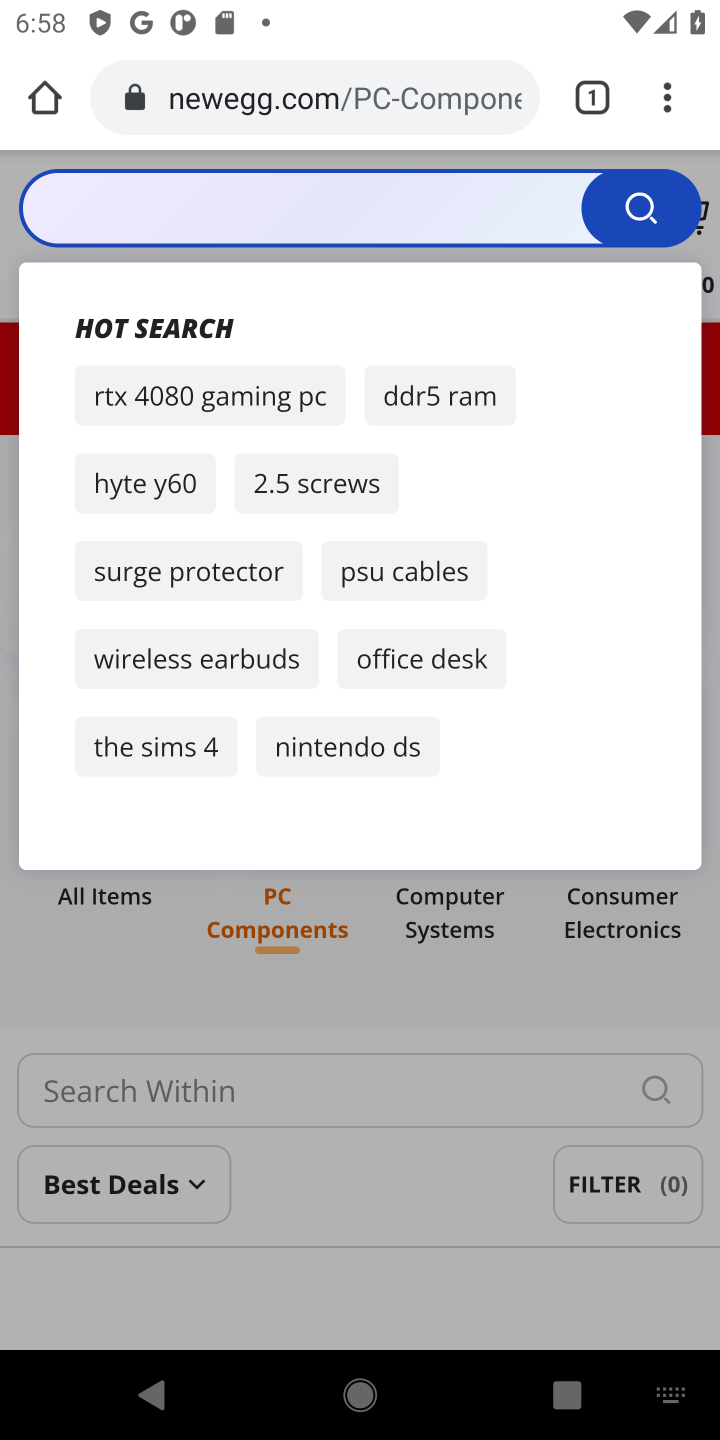
Step 29: type "acer predator "
Your task to perform on an android device: Show the shopping cart on newegg. Add acer predator to the cart on newegg, then select checkout. Image 30: 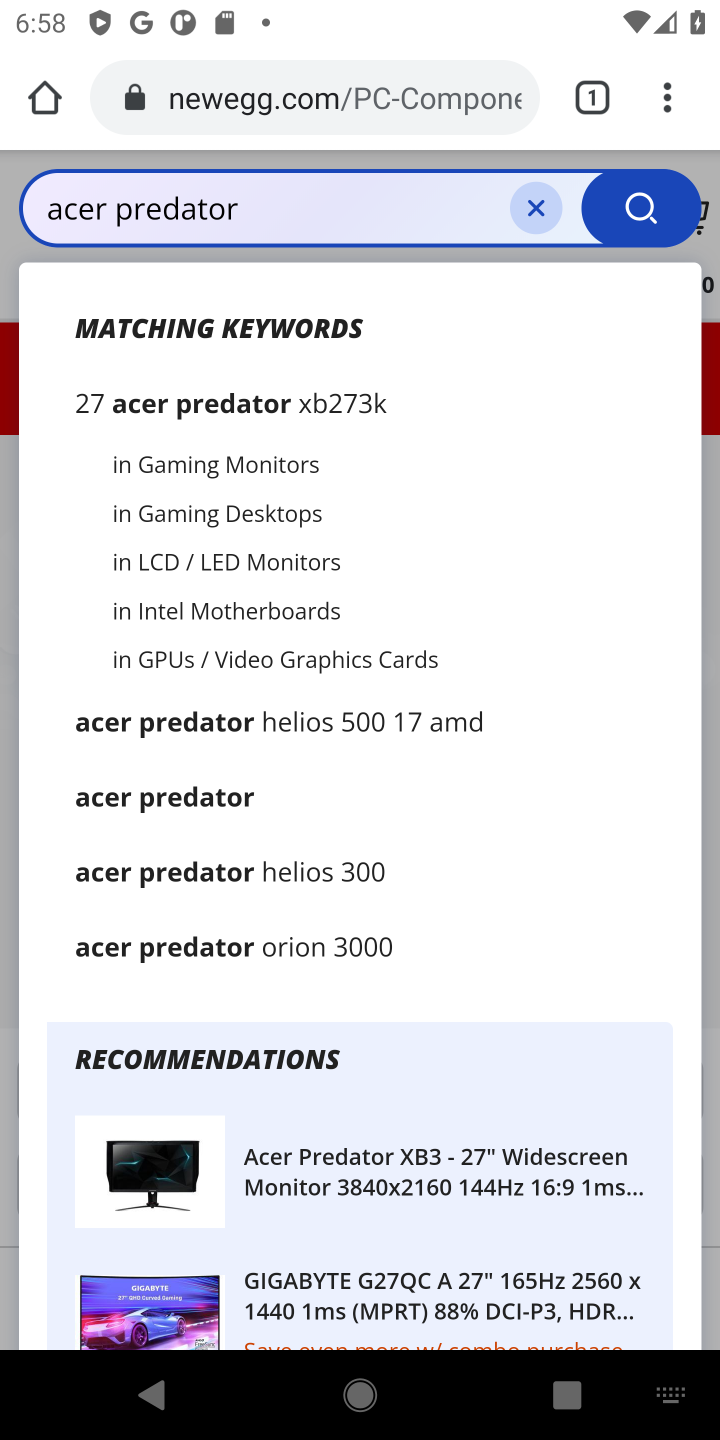
Step 30: click (216, 799)
Your task to perform on an android device: Show the shopping cart on newegg. Add acer predator to the cart on newegg, then select checkout. Image 31: 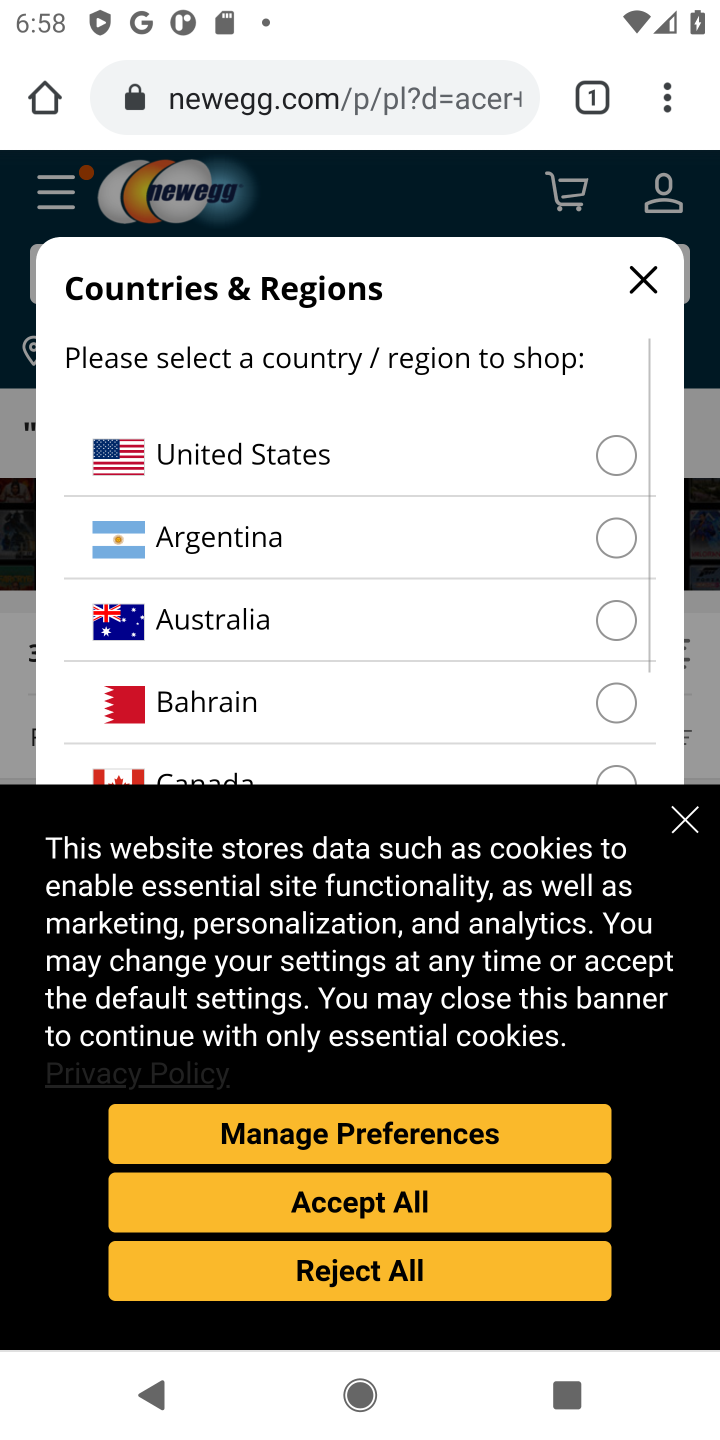
Step 31: click (435, 1197)
Your task to perform on an android device: Show the shopping cart on newegg. Add acer predator to the cart on newegg, then select checkout. Image 32: 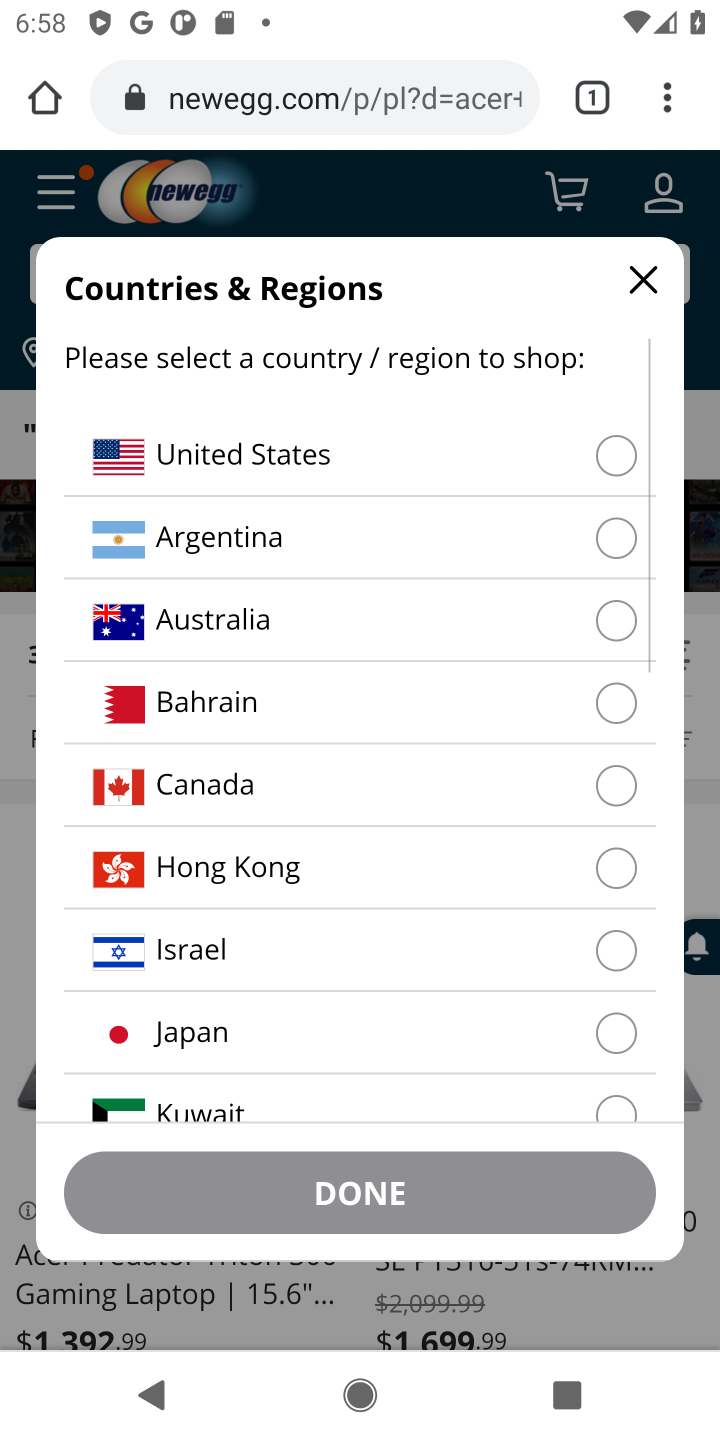
Step 32: click (616, 468)
Your task to perform on an android device: Show the shopping cart on newegg. Add acer predator to the cart on newegg, then select checkout. Image 33: 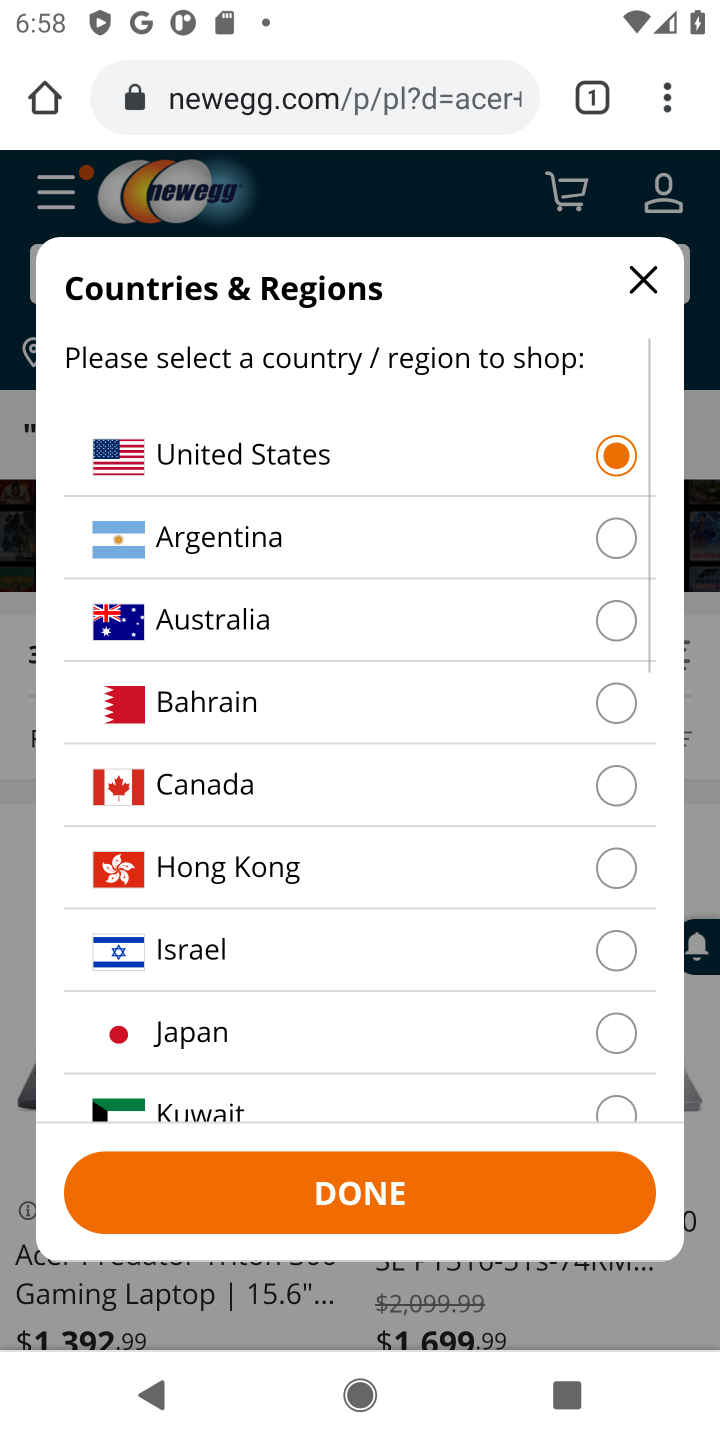
Step 33: click (378, 1189)
Your task to perform on an android device: Show the shopping cart on newegg. Add acer predator to the cart on newegg, then select checkout. Image 34: 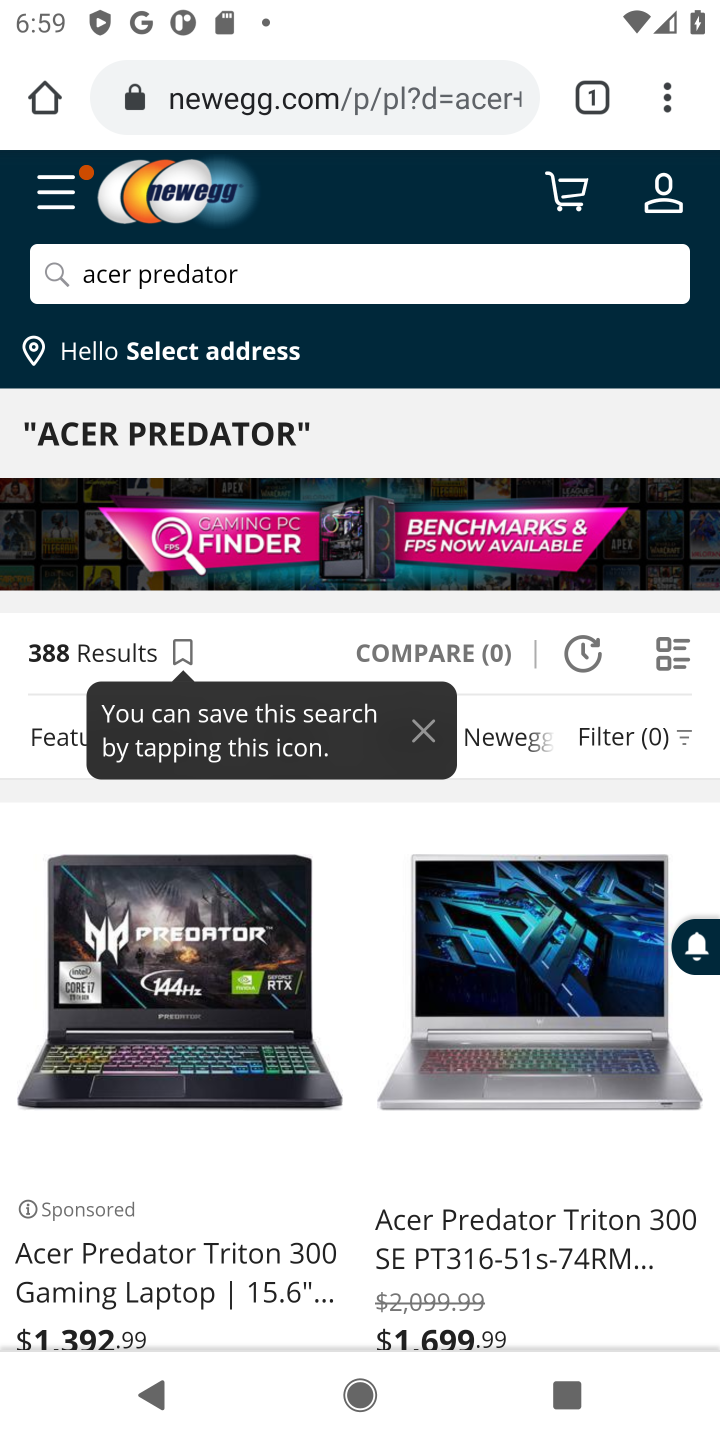
Step 34: click (216, 1040)
Your task to perform on an android device: Show the shopping cart on newegg. Add acer predator to the cart on newegg, then select checkout. Image 35: 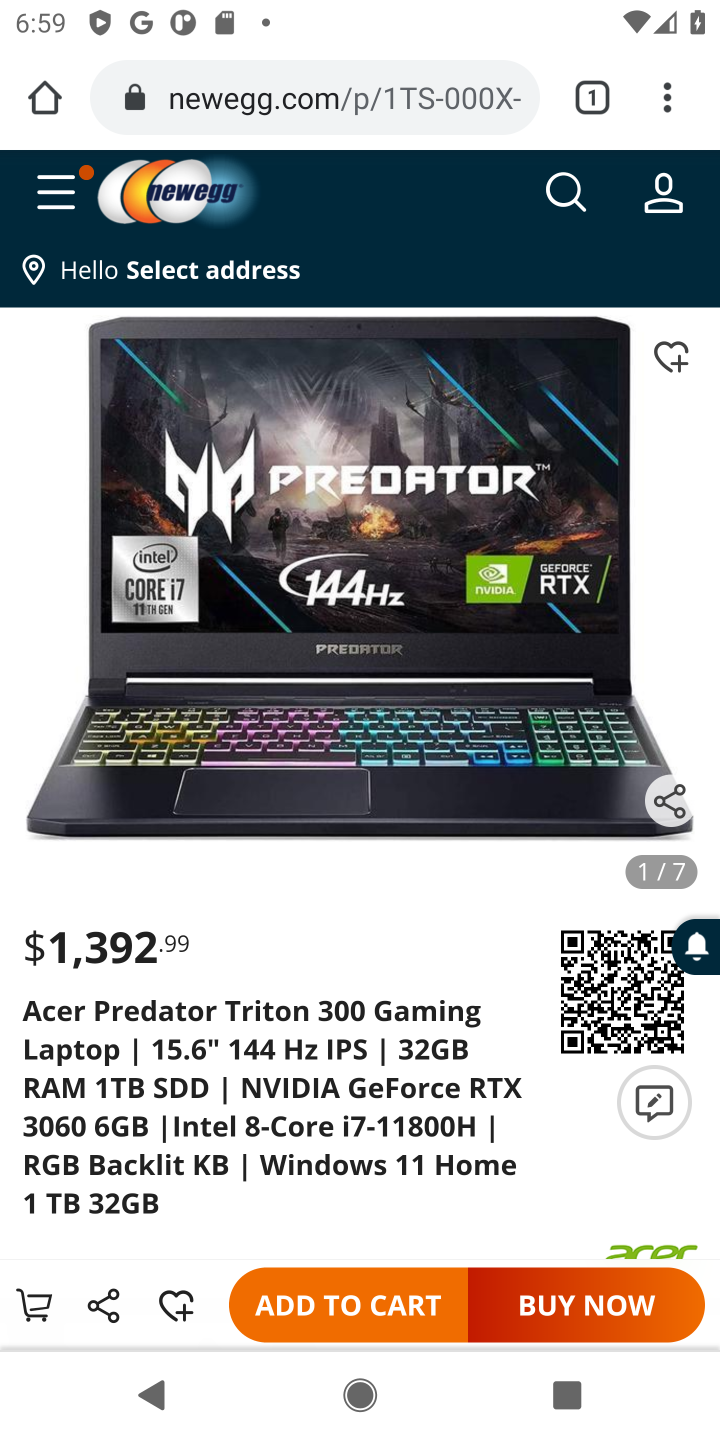
Step 35: click (363, 1301)
Your task to perform on an android device: Show the shopping cart on newegg. Add acer predator to the cart on newegg, then select checkout. Image 36: 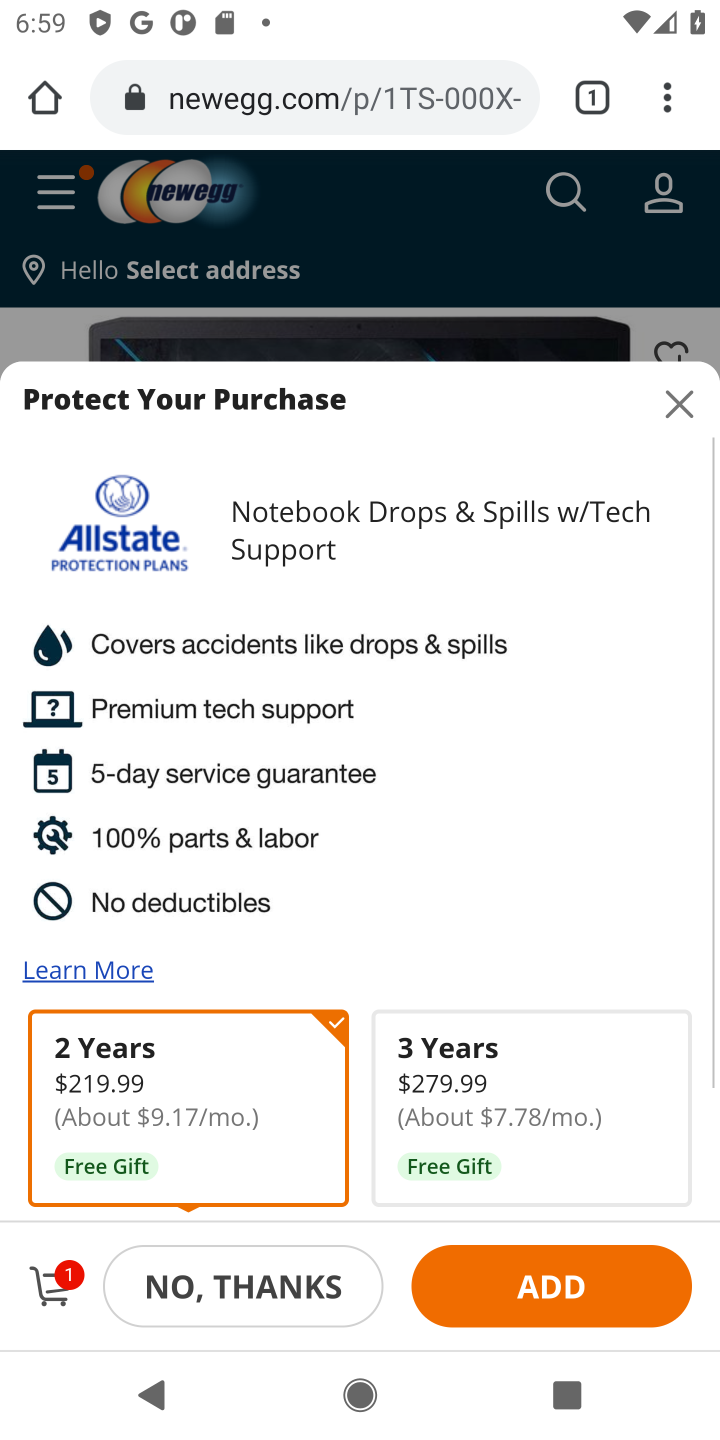
Step 36: click (51, 1292)
Your task to perform on an android device: Show the shopping cart on newegg. Add acer predator to the cart on newegg, then select checkout. Image 37: 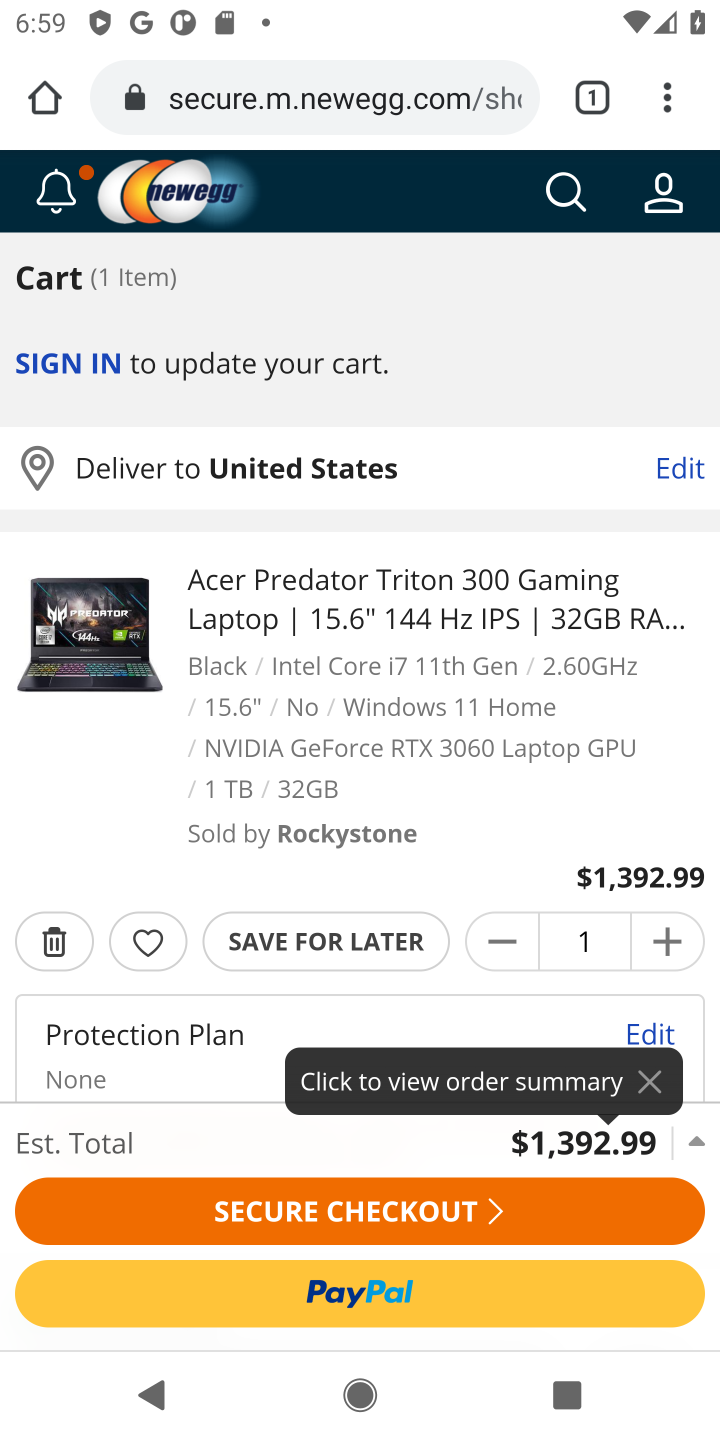
Step 37: click (378, 1214)
Your task to perform on an android device: Show the shopping cart on newegg. Add acer predator to the cart on newegg, then select checkout. Image 38: 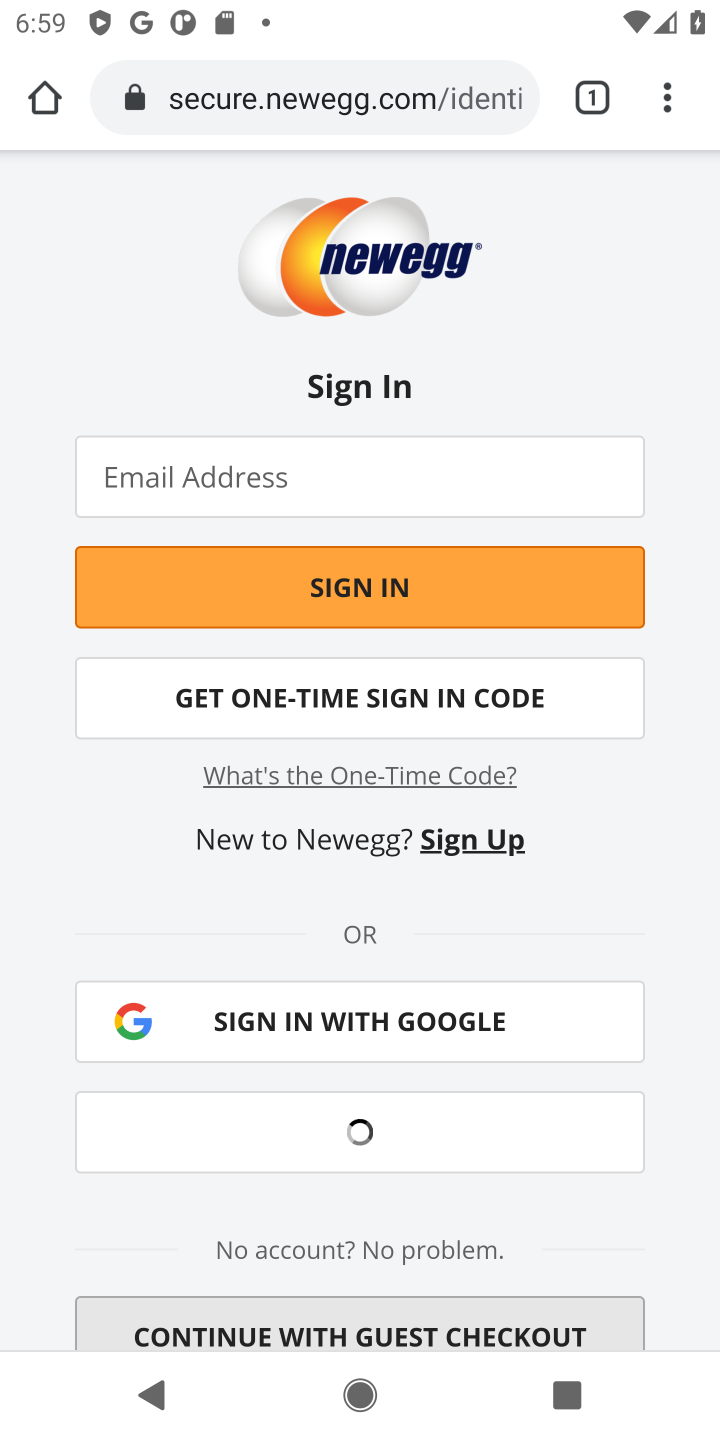
Step 38: task complete